Your task to perform on an android device: turn off javascript in the chrome app Image 0: 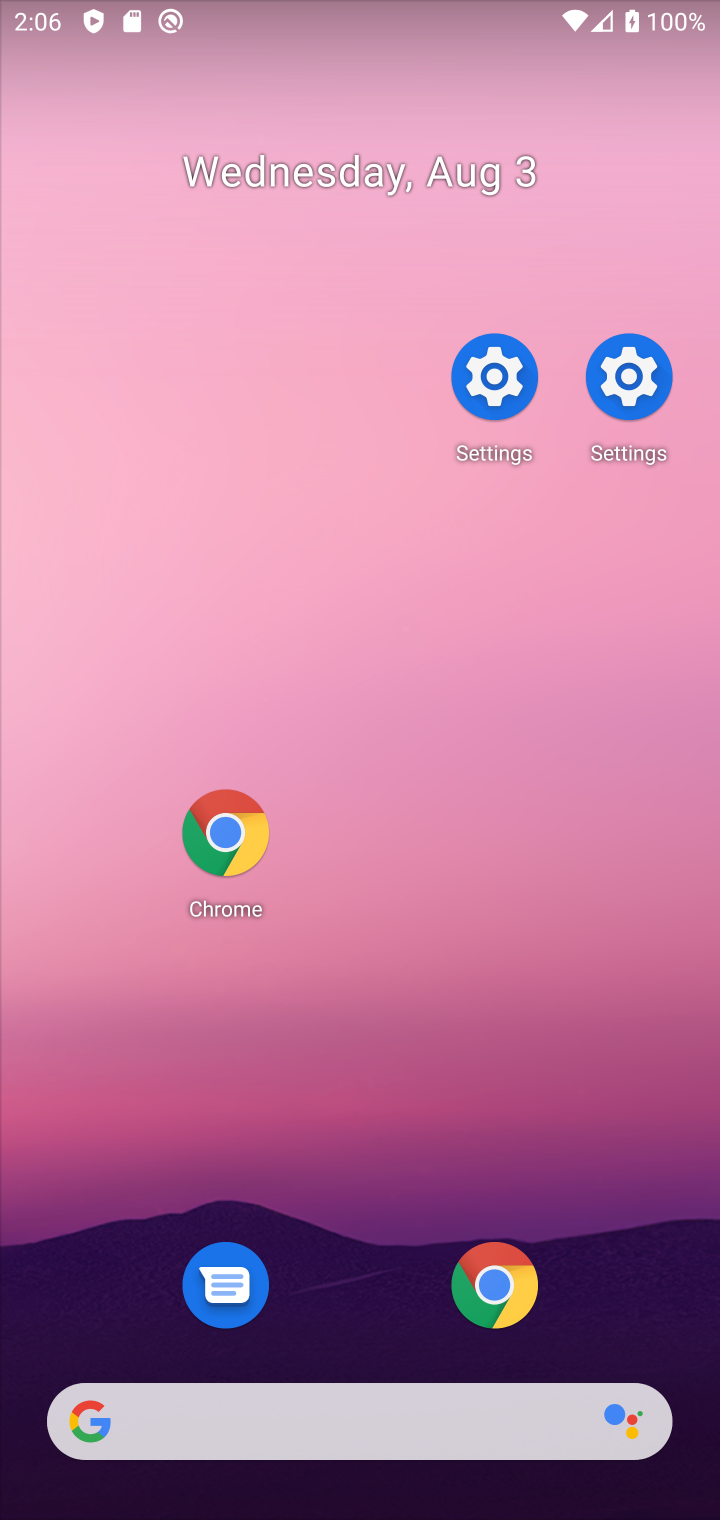
Step 0: drag from (218, 794) to (273, 479)
Your task to perform on an android device: turn off javascript in the chrome app Image 1: 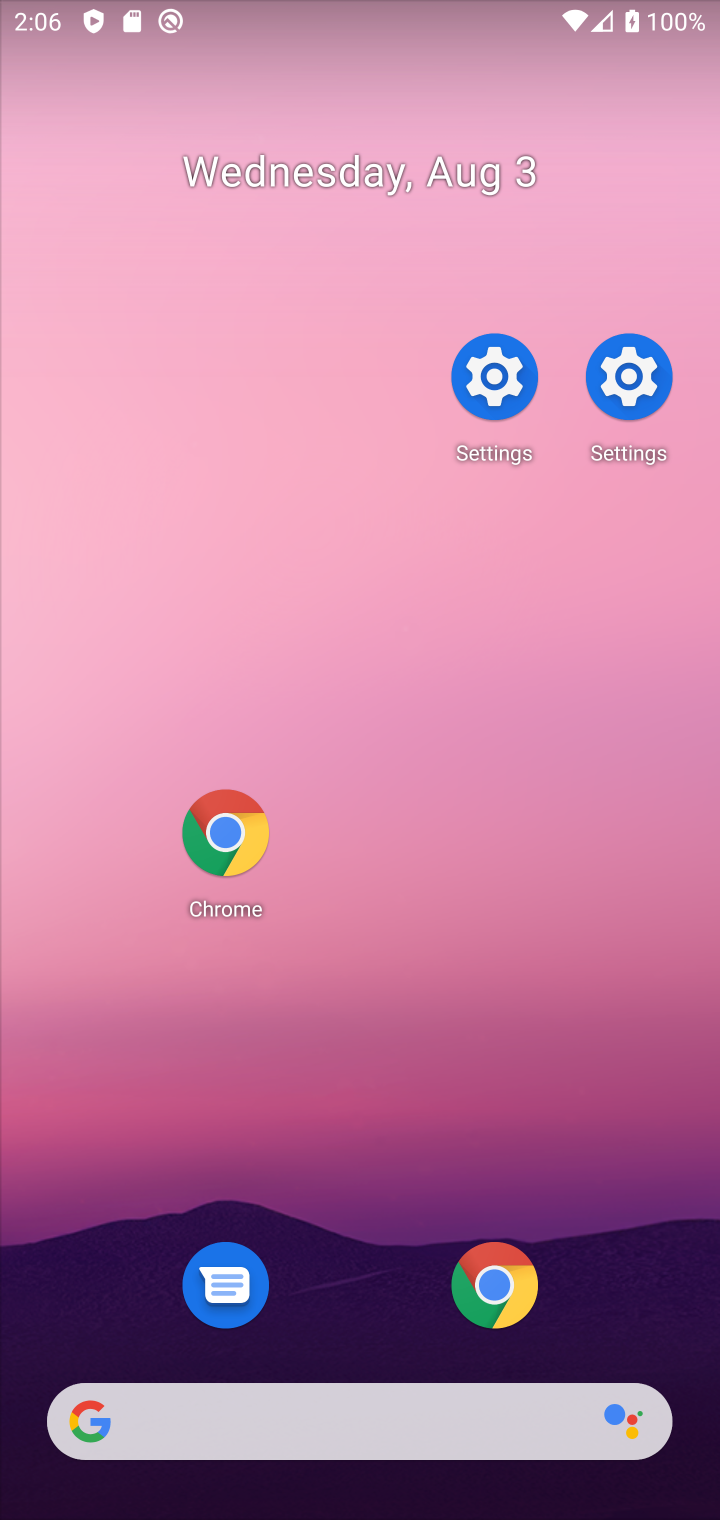
Step 1: drag from (101, 289) to (271, 575)
Your task to perform on an android device: turn off javascript in the chrome app Image 2: 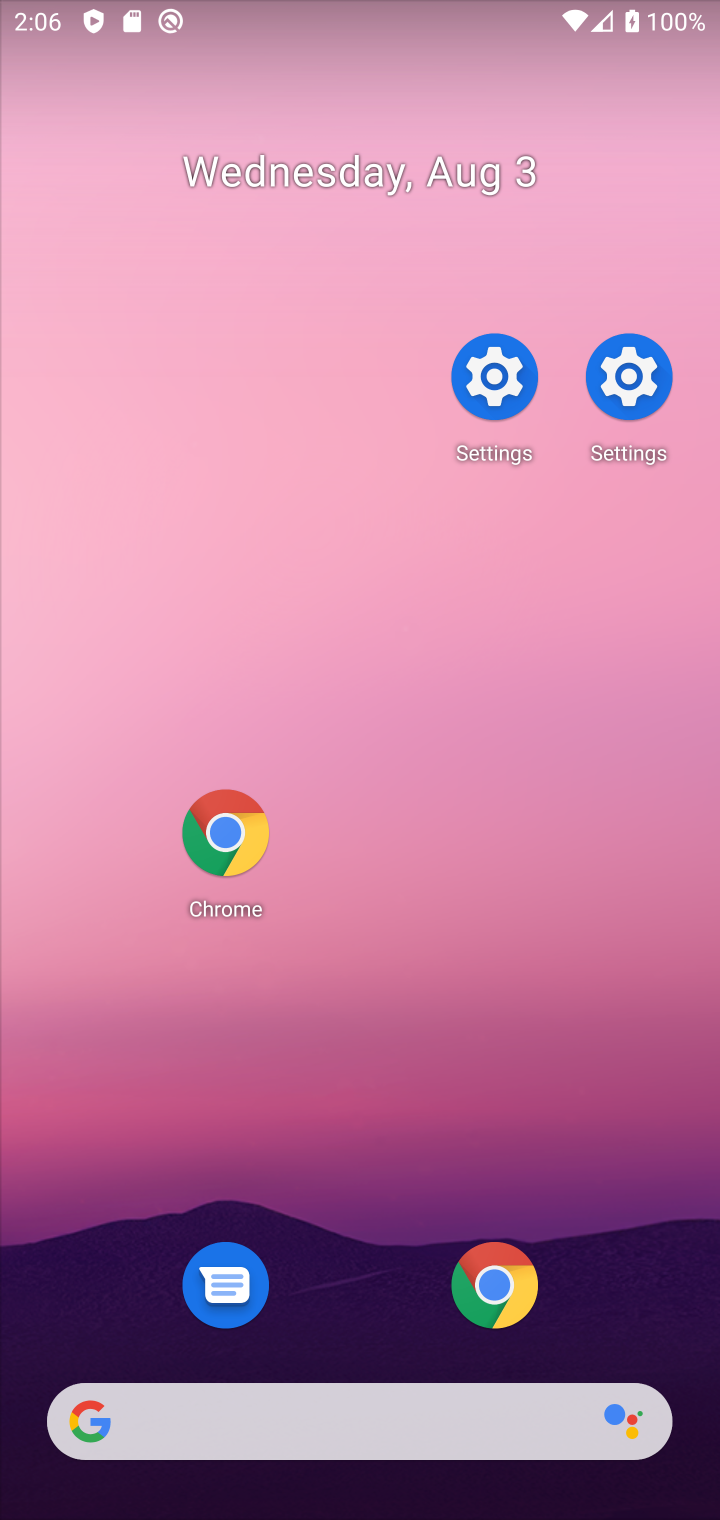
Step 2: click (444, 160)
Your task to perform on an android device: turn off javascript in the chrome app Image 3: 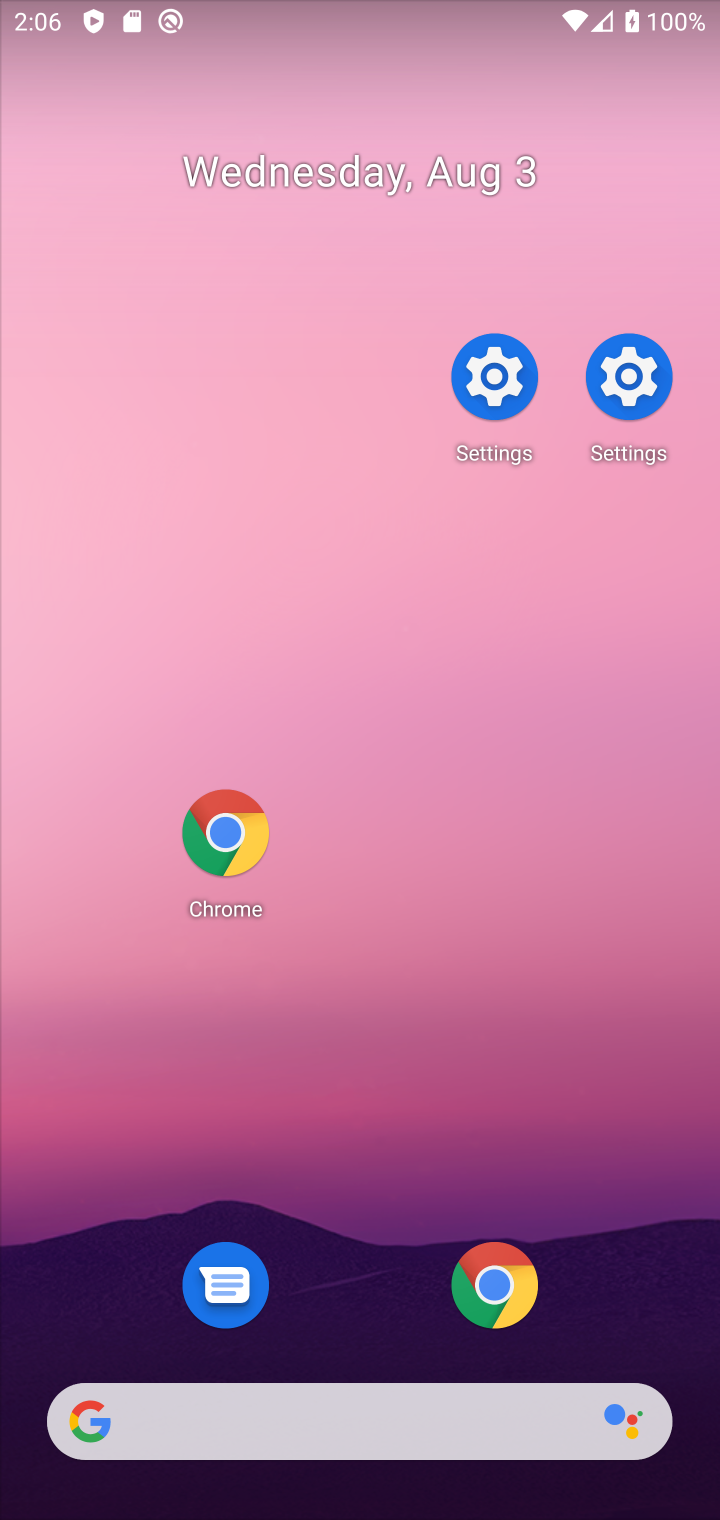
Step 3: click (366, 552)
Your task to perform on an android device: turn off javascript in the chrome app Image 4: 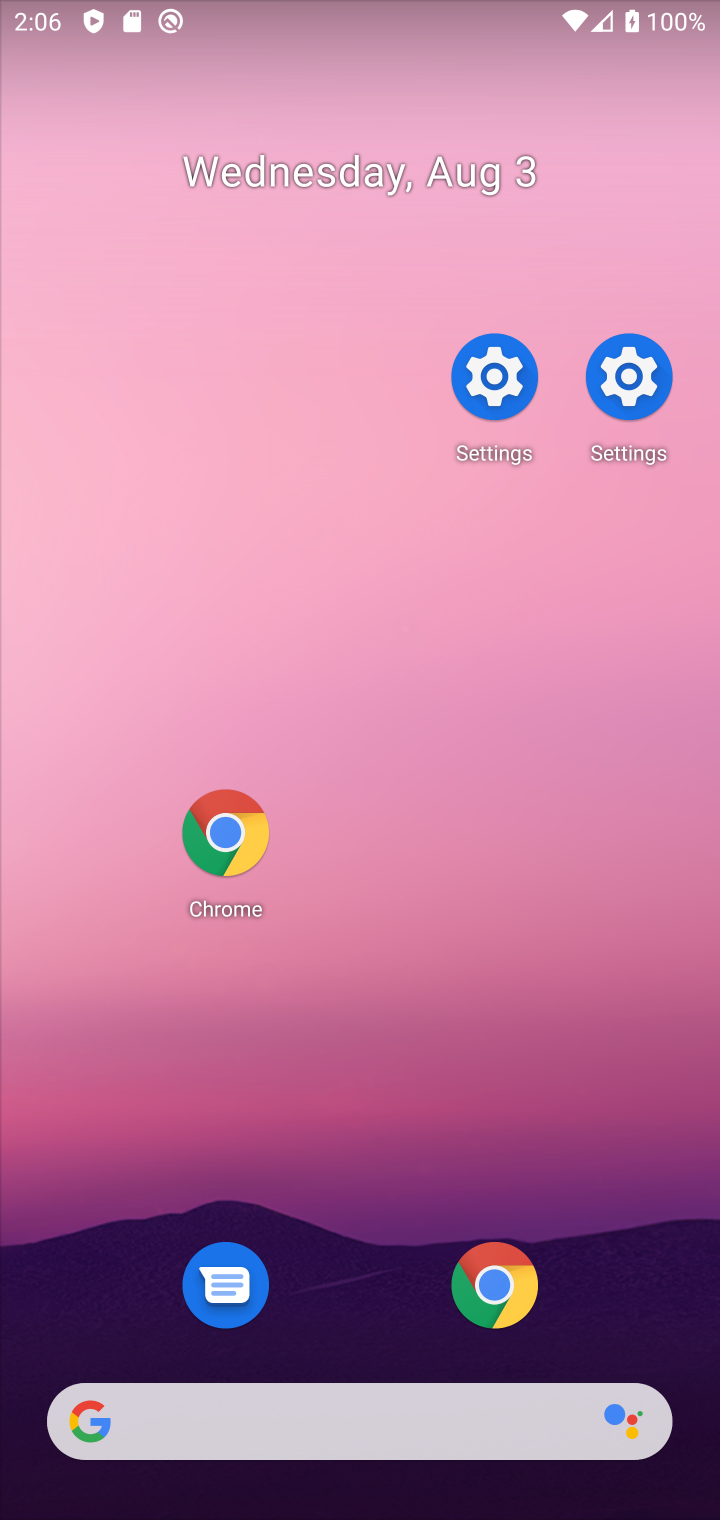
Step 4: drag from (346, 494) to (292, 232)
Your task to perform on an android device: turn off javascript in the chrome app Image 5: 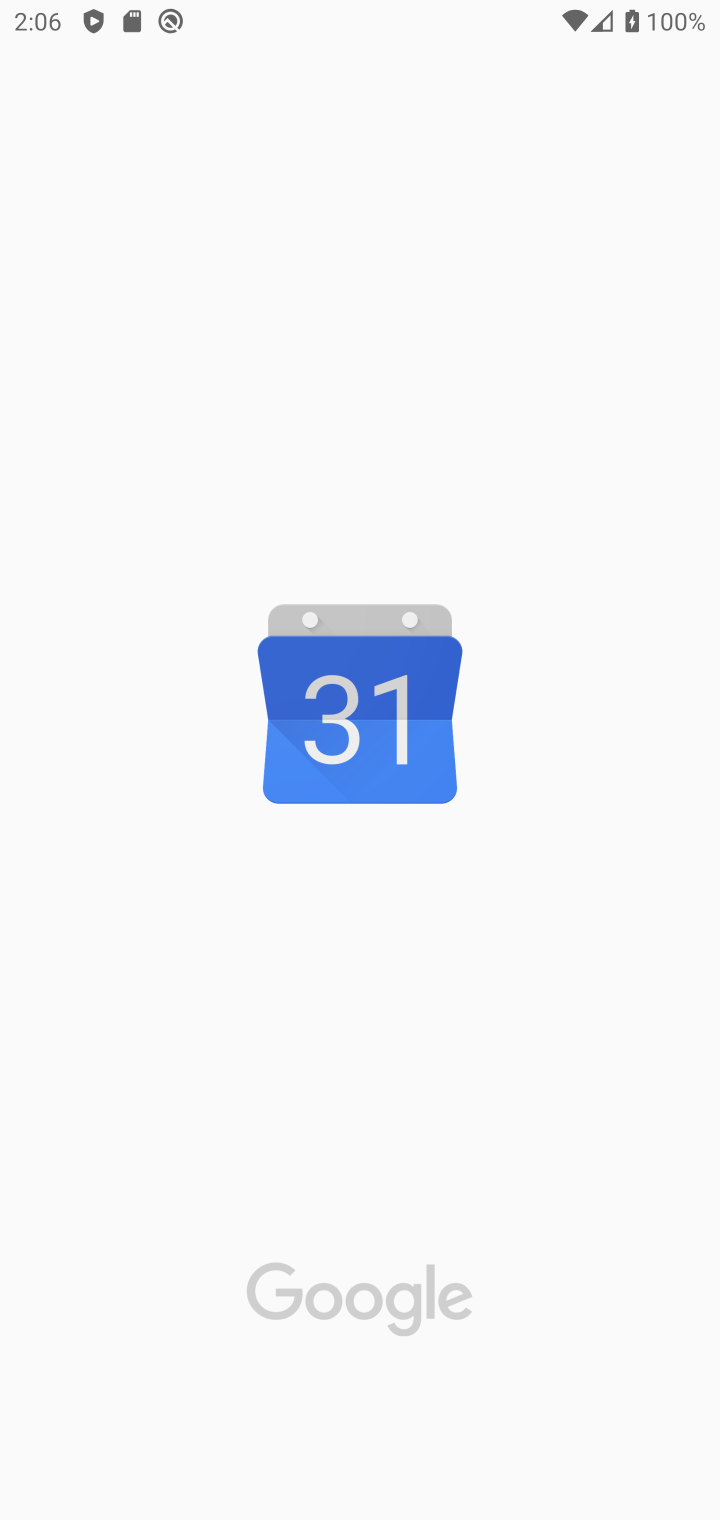
Step 5: drag from (436, 1020) to (363, 475)
Your task to perform on an android device: turn off javascript in the chrome app Image 6: 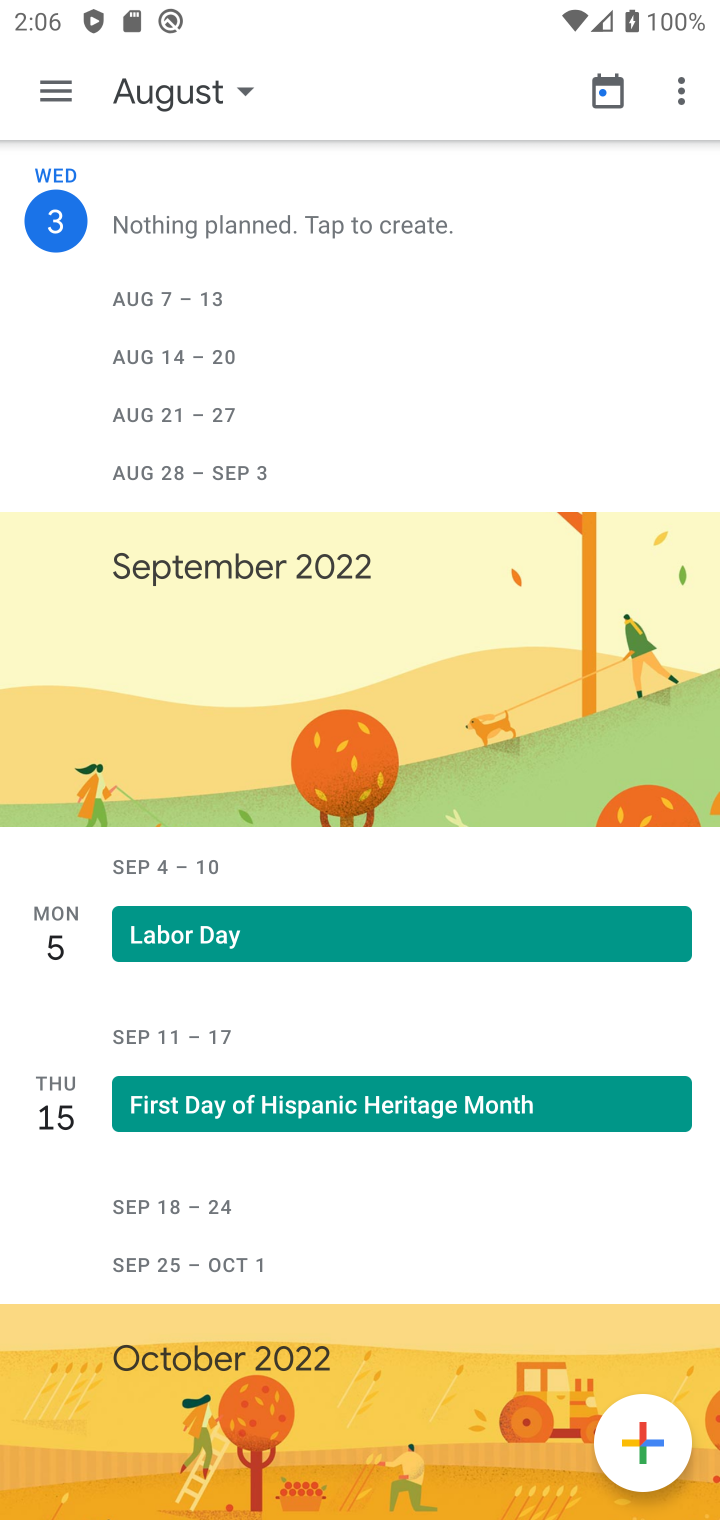
Step 6: click (361, 568)
Your task to perform on an android device: turn off javascript in the chrome app Image 7: 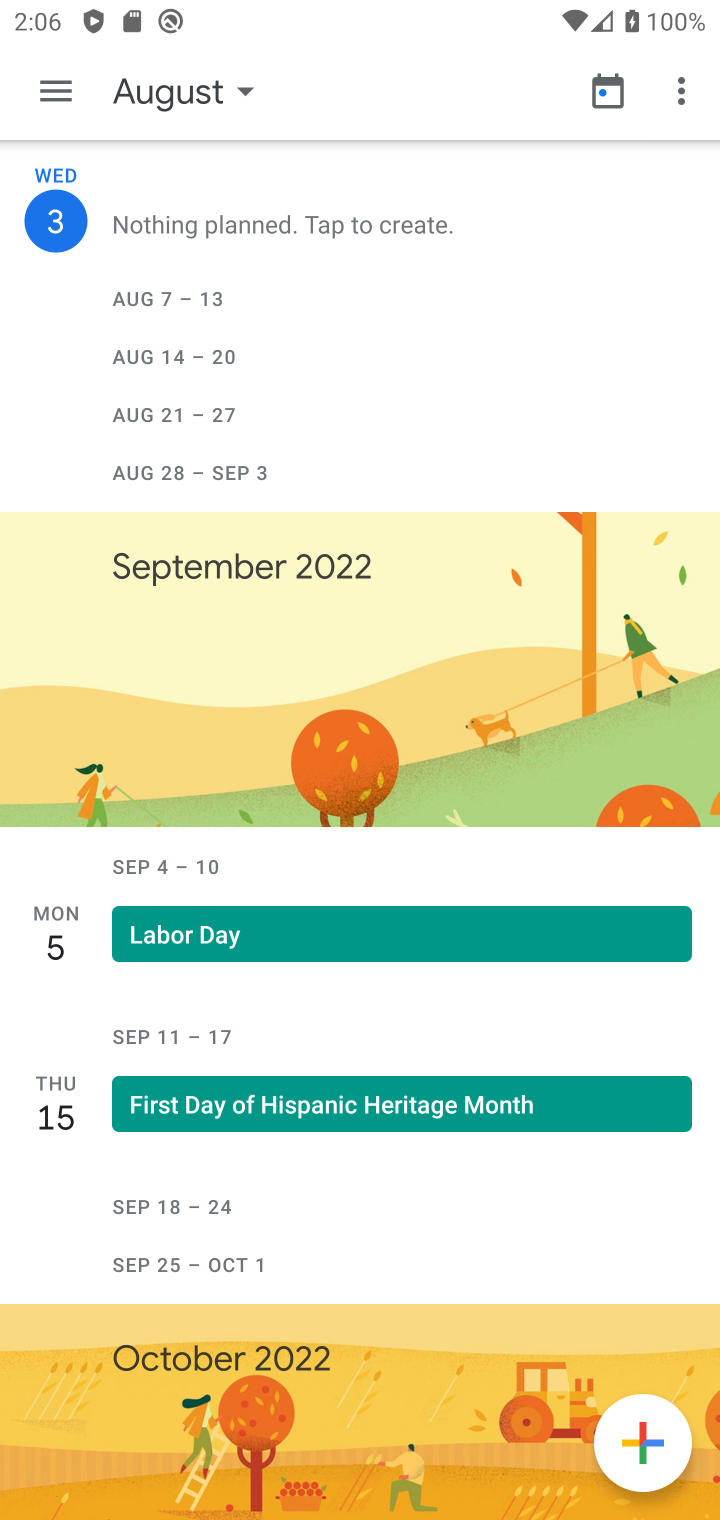
Step 7: press back button
Your task to perform on an android device: turn off javascript in the chrome app Image 8: 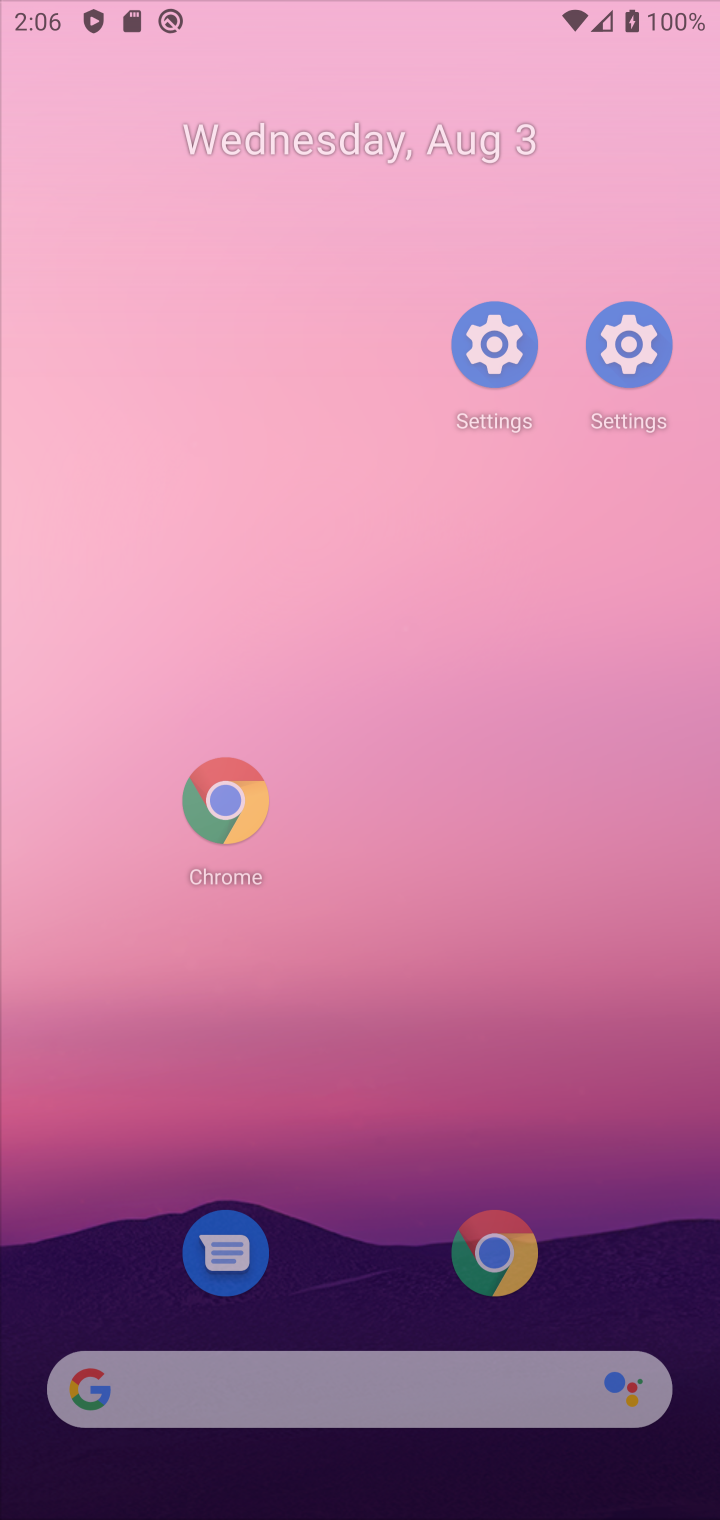
Step 8: press home button
Your task to perform on an android device: turn off javascript in the chrome app Image 9: 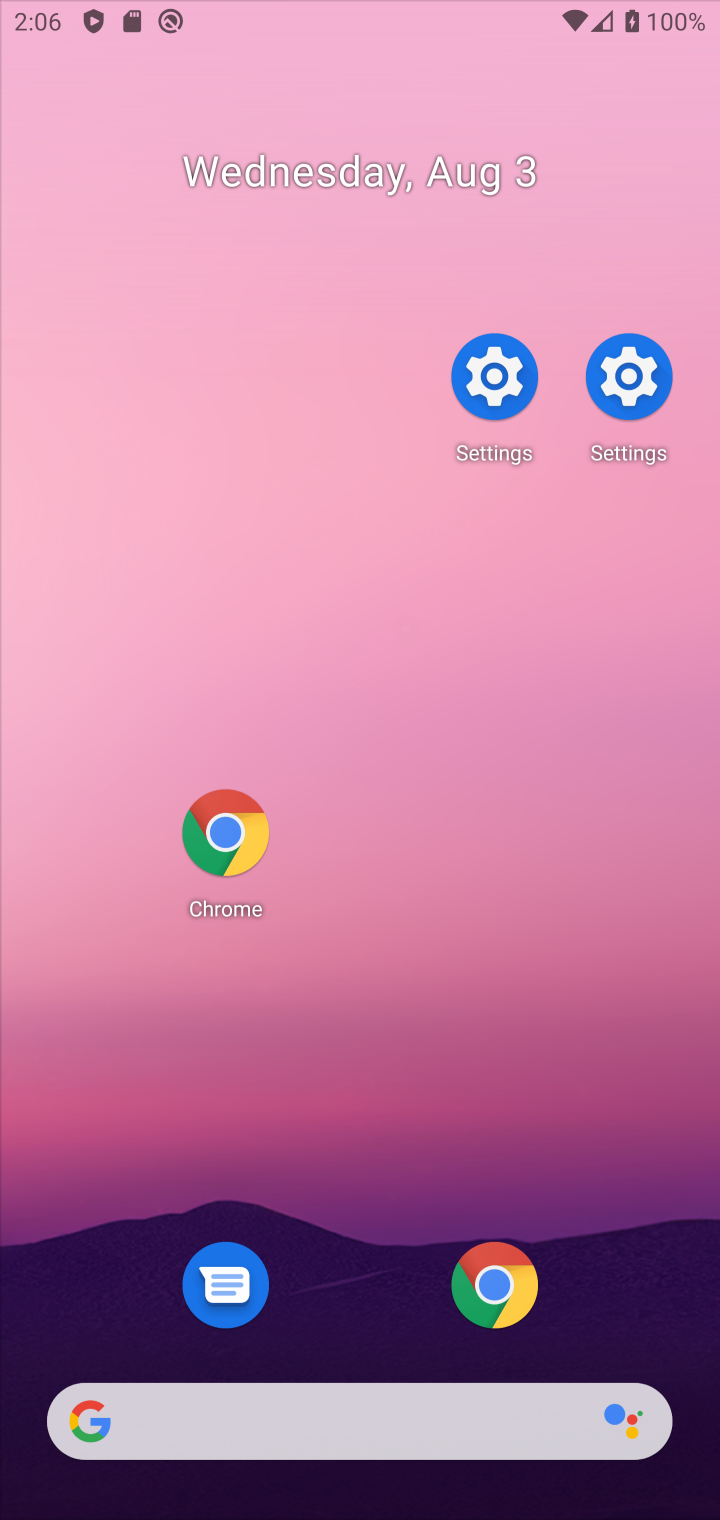
Step 9: drag from (149, 121) to (196, 262)
Your task to perform on an android device: turn off javascript in the chrome app Image 10: 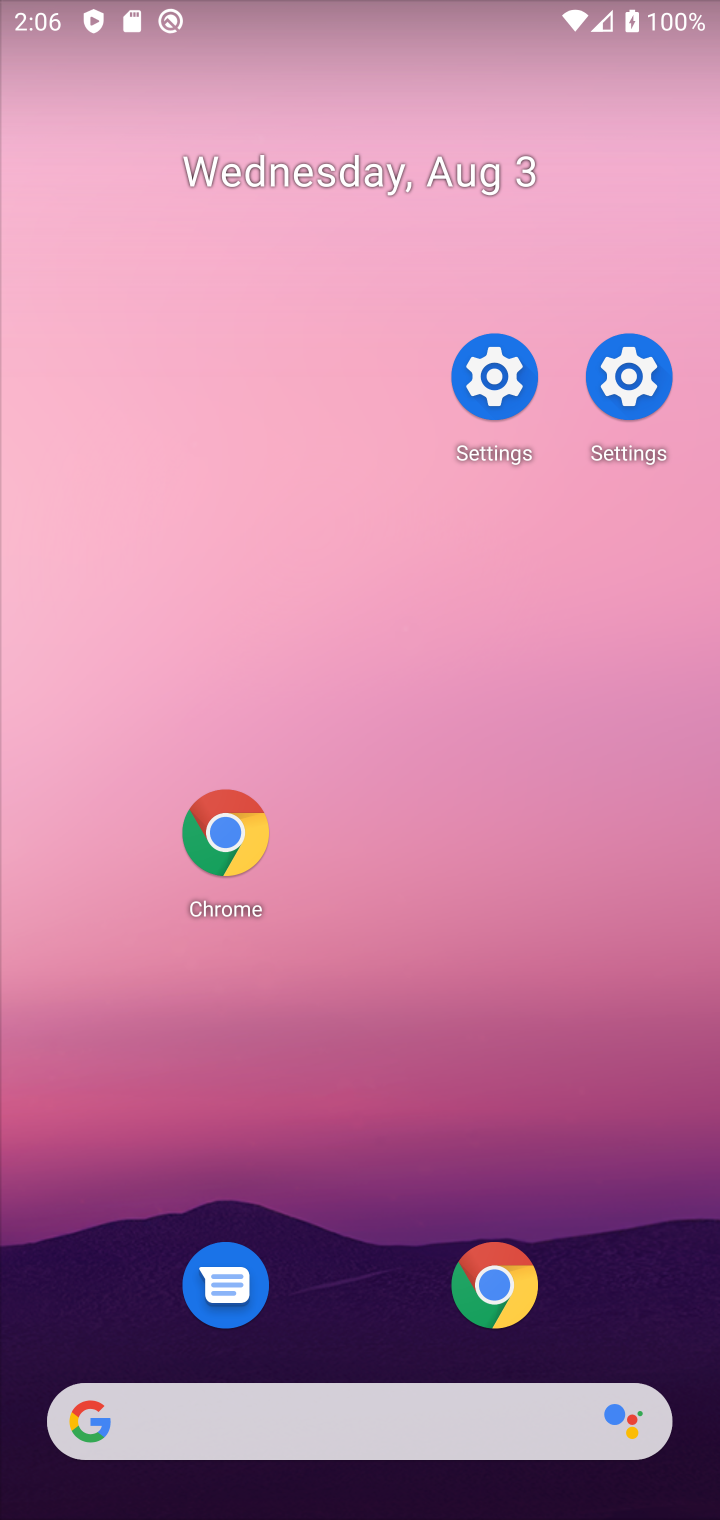
Step 10: click (180, 314)
Your task to perform on an android device: turn off javascript in the chrome app Image 11: 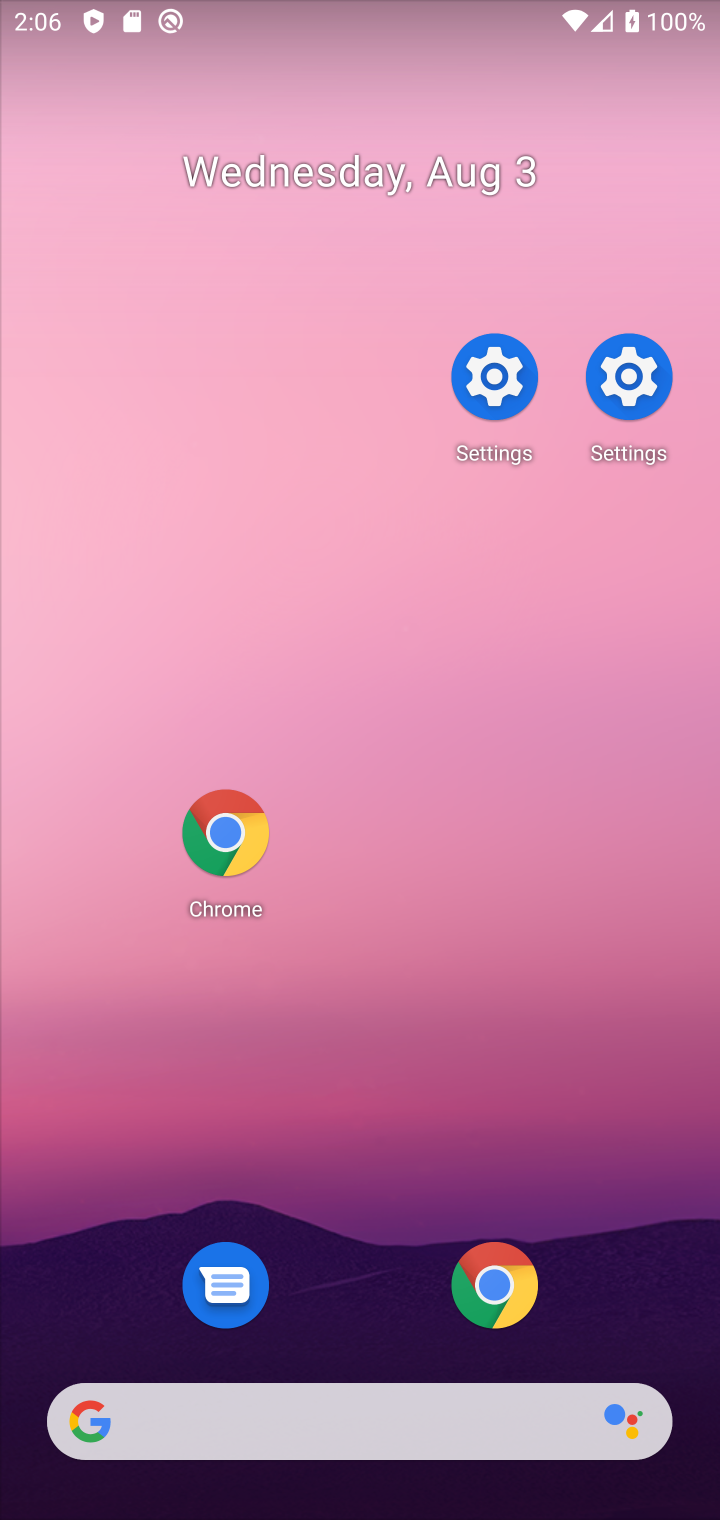
Step 11: click (158, 231)
Your task to perform on an android device: turn off javascript in the chrome app Image 12: 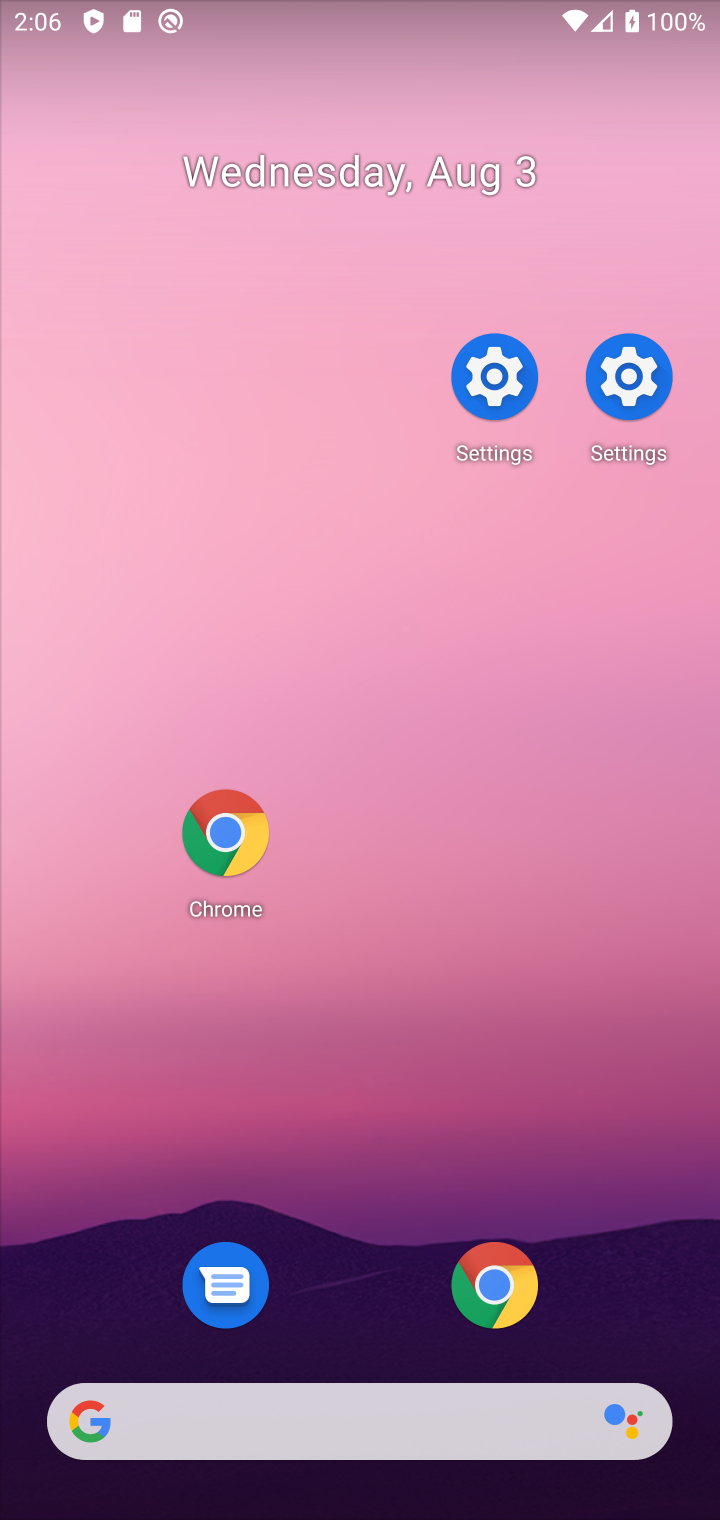
Step 12: drag from (332, 961) to (240, 394)
Your task to perform on an android device: turn off javascript in the chrome app Image 13: 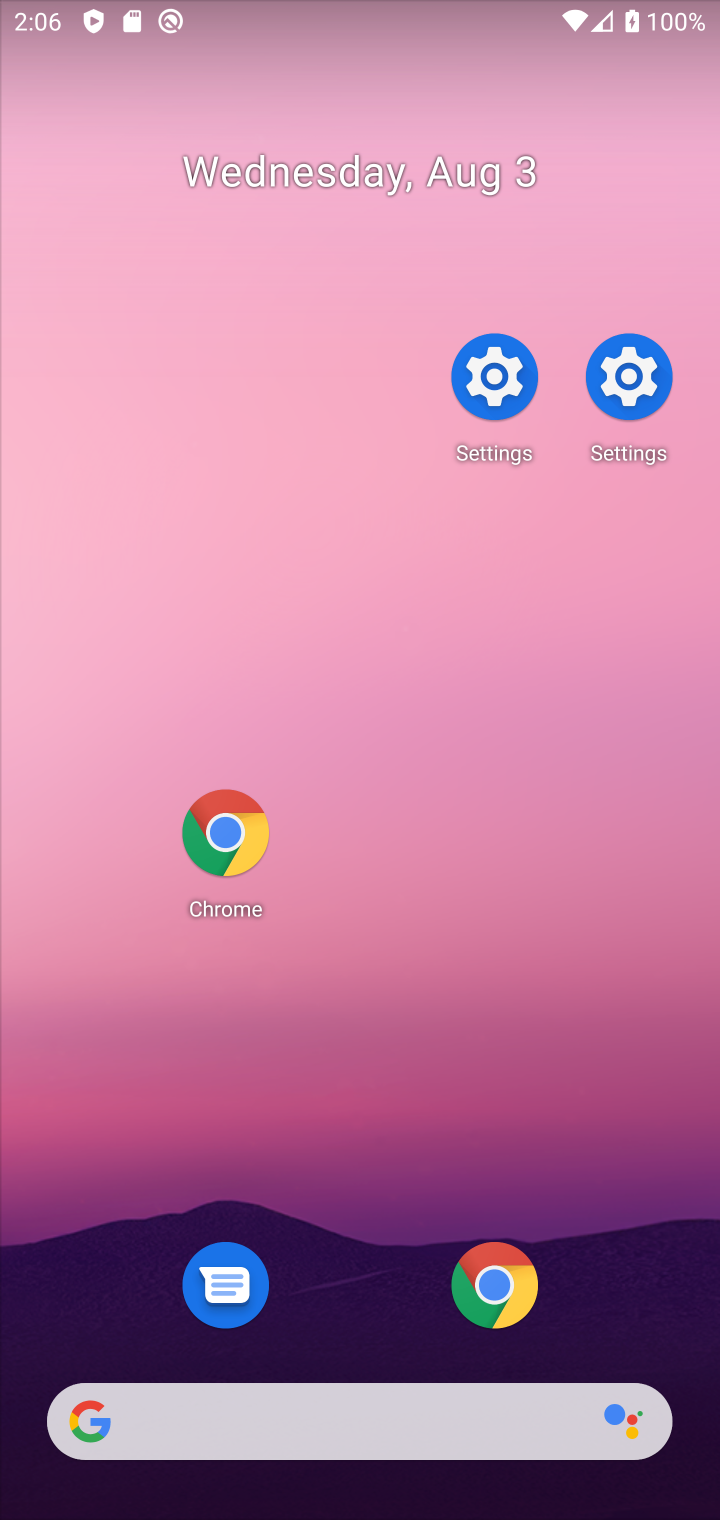
Step 13: drag from (346, 909) to (286, 750)
Your task to perform on an android device: turn off javascript in the chrome app Image 14: 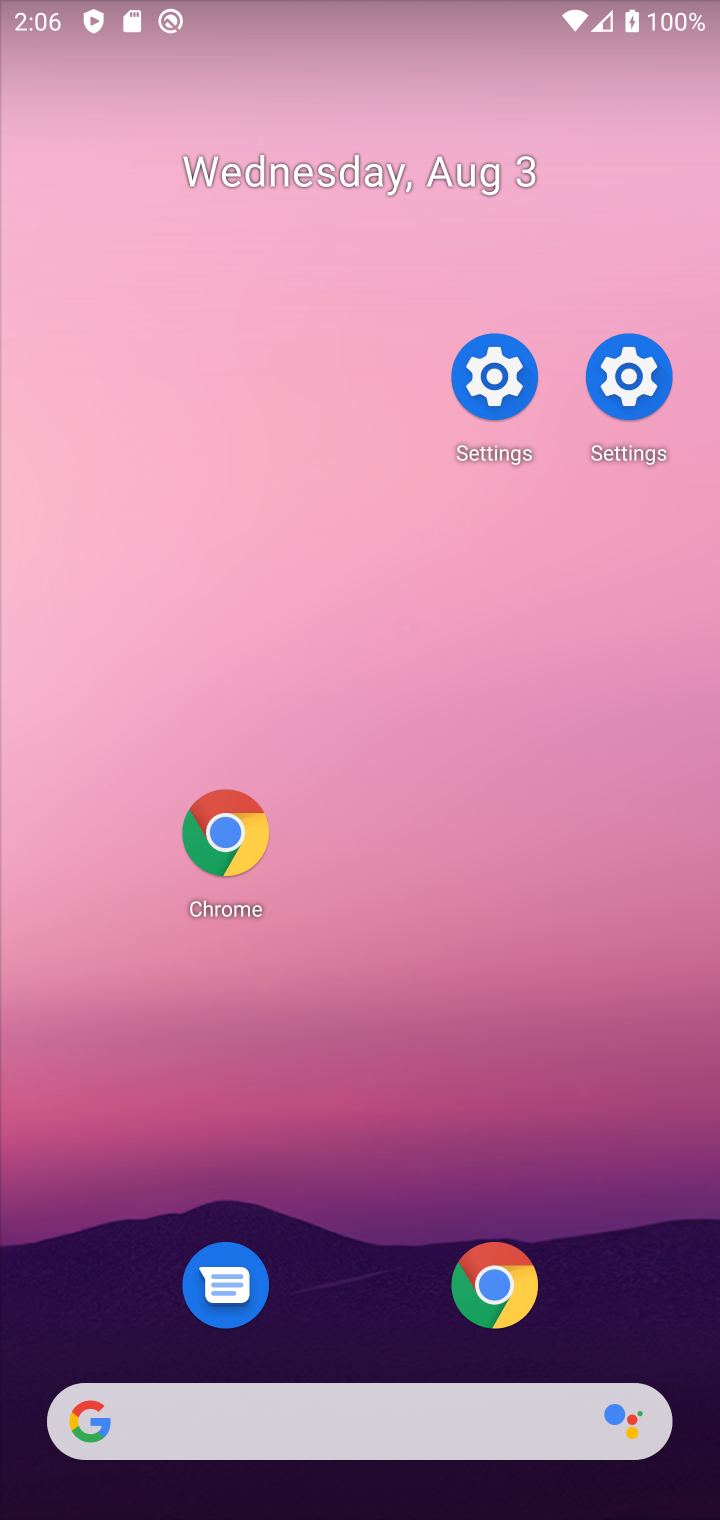
Step 14: drag from (326, 1164) to (264, 427)
Your task to perform on an android device: turn off javascript in the chrome app Image 15: 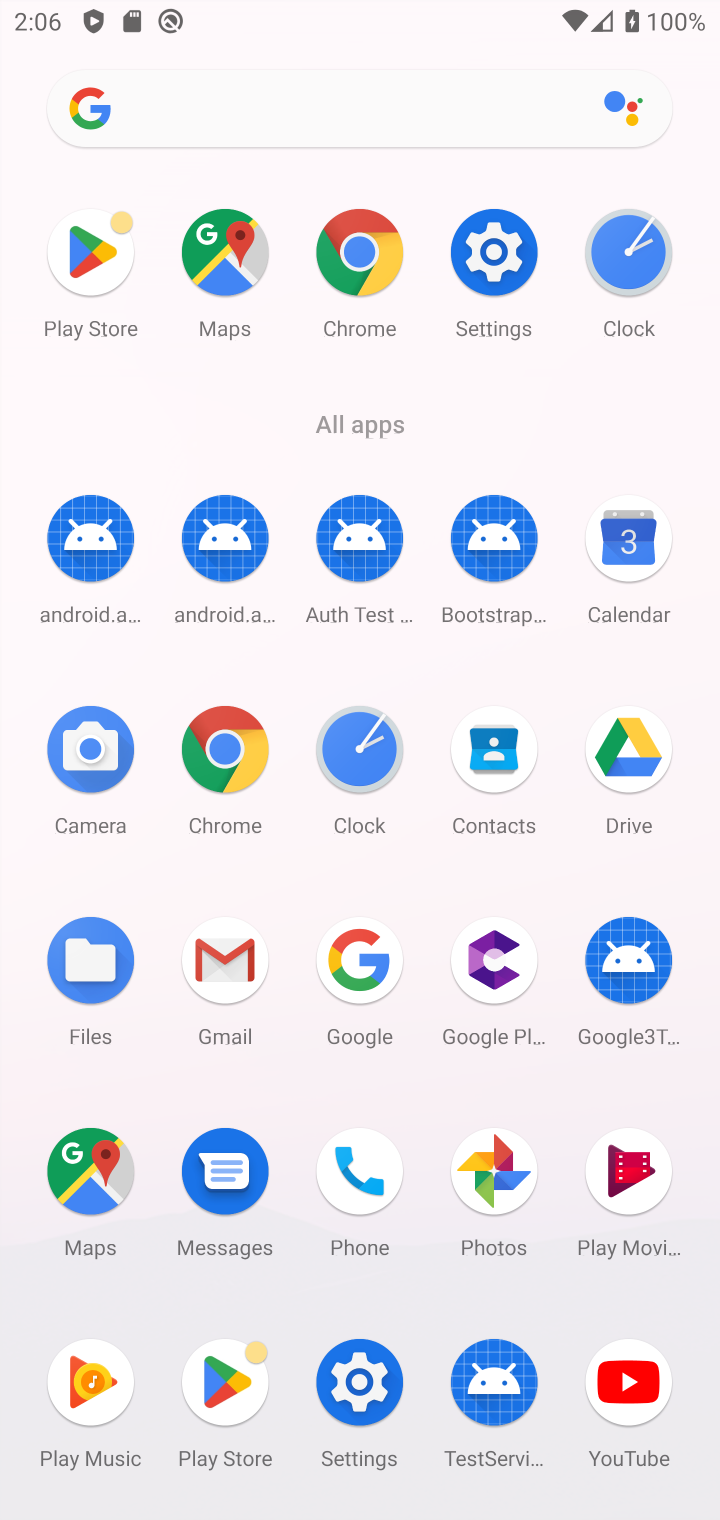
Step 15: drag from (401, 146) to (447, 42)
Your task to perform on an android device: turn off javascript in the chrome app Image 16: 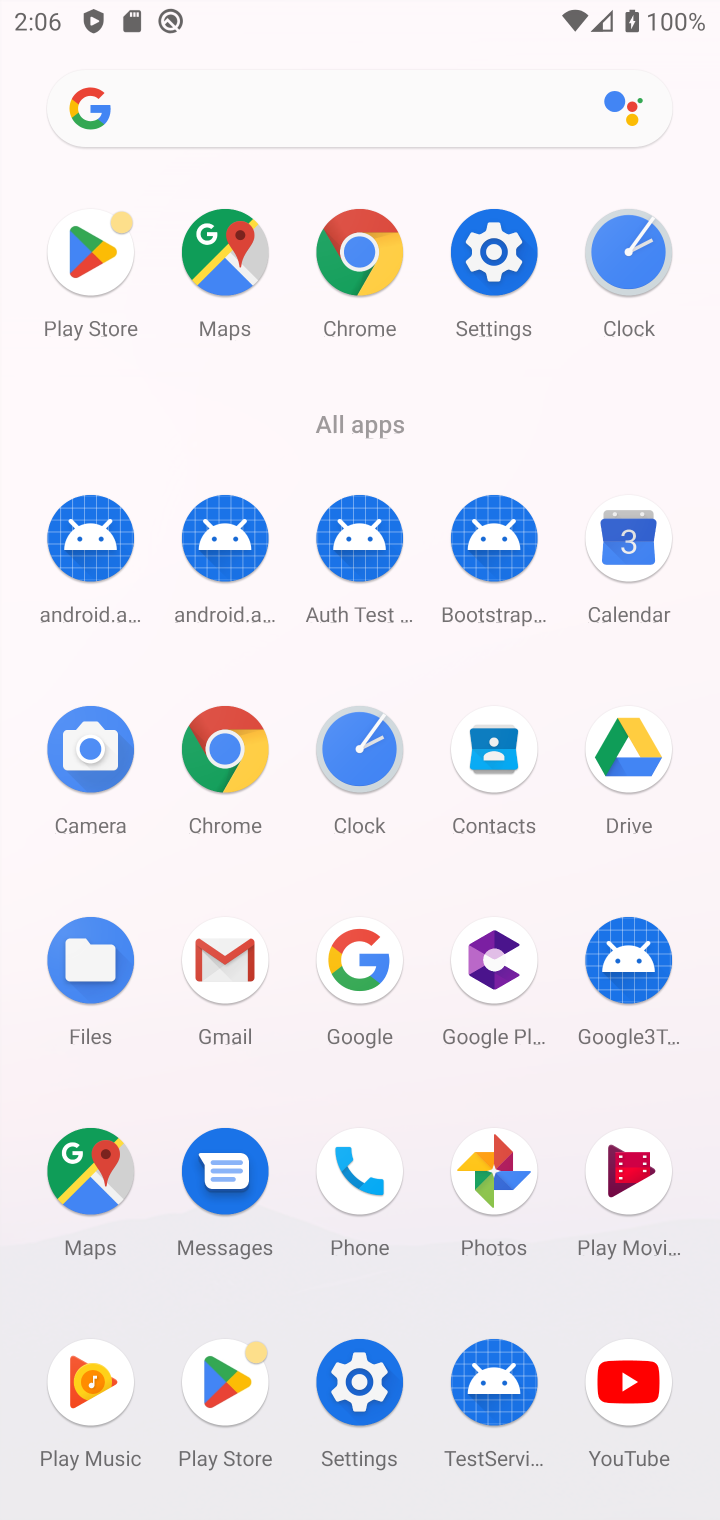
Step 16: click (219, 730)
Your task to perform on an android device: turn off javascript in the chrome app Image 17: 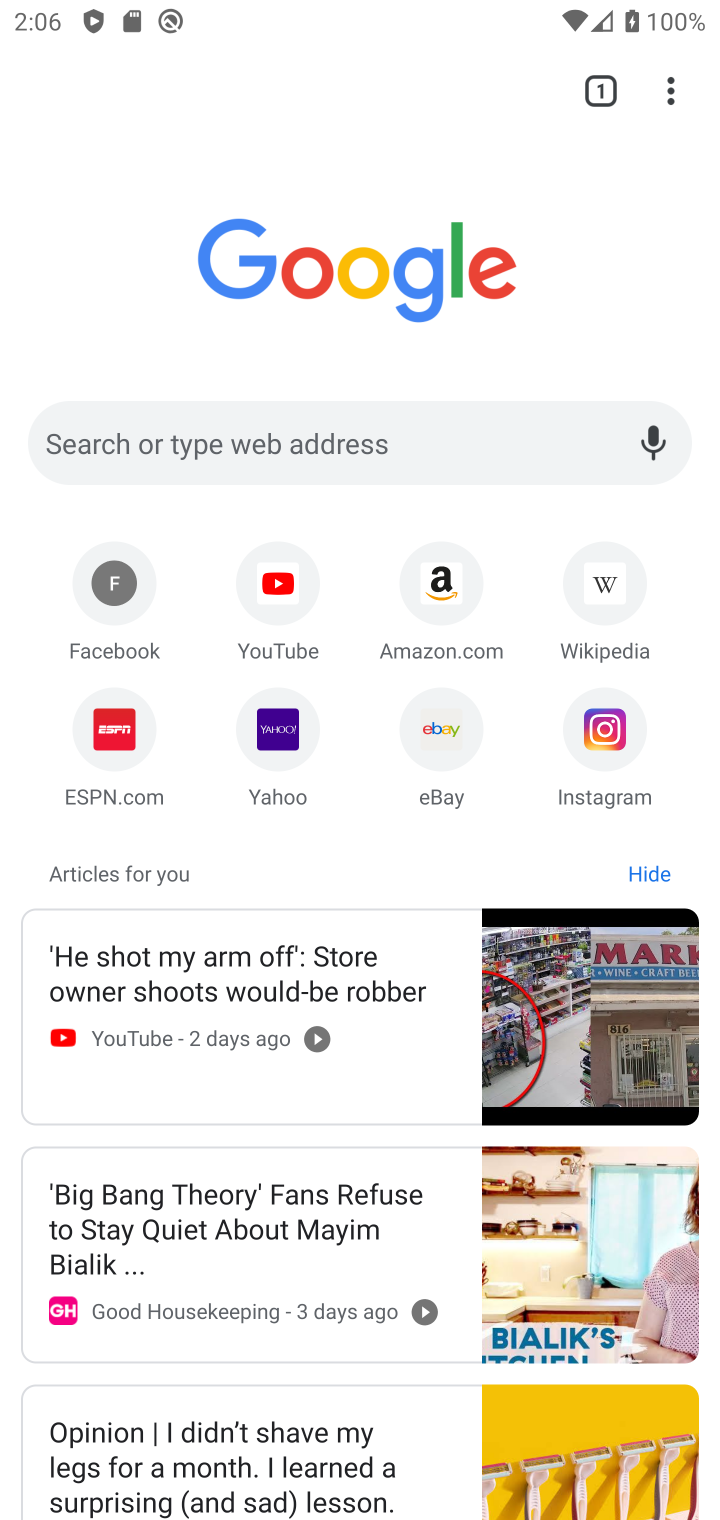
Step 17: drag from (673, 95) to (343, 782)
Your task to perform on an android device: turn off javascript in the chrome app Image 18: 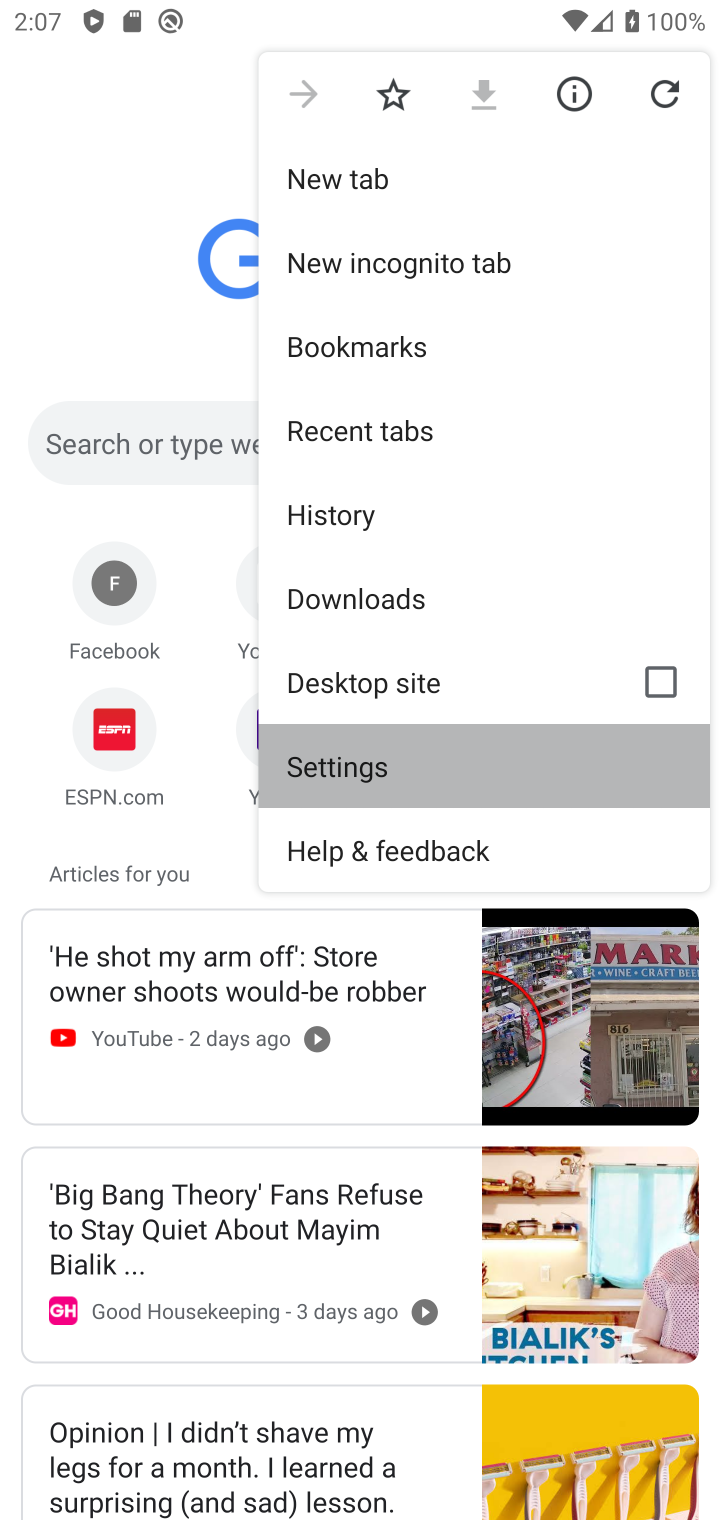
Step 18: click (338, 783)
Your task to perform on an android device: turn off javascript in the chrome app Image 19: 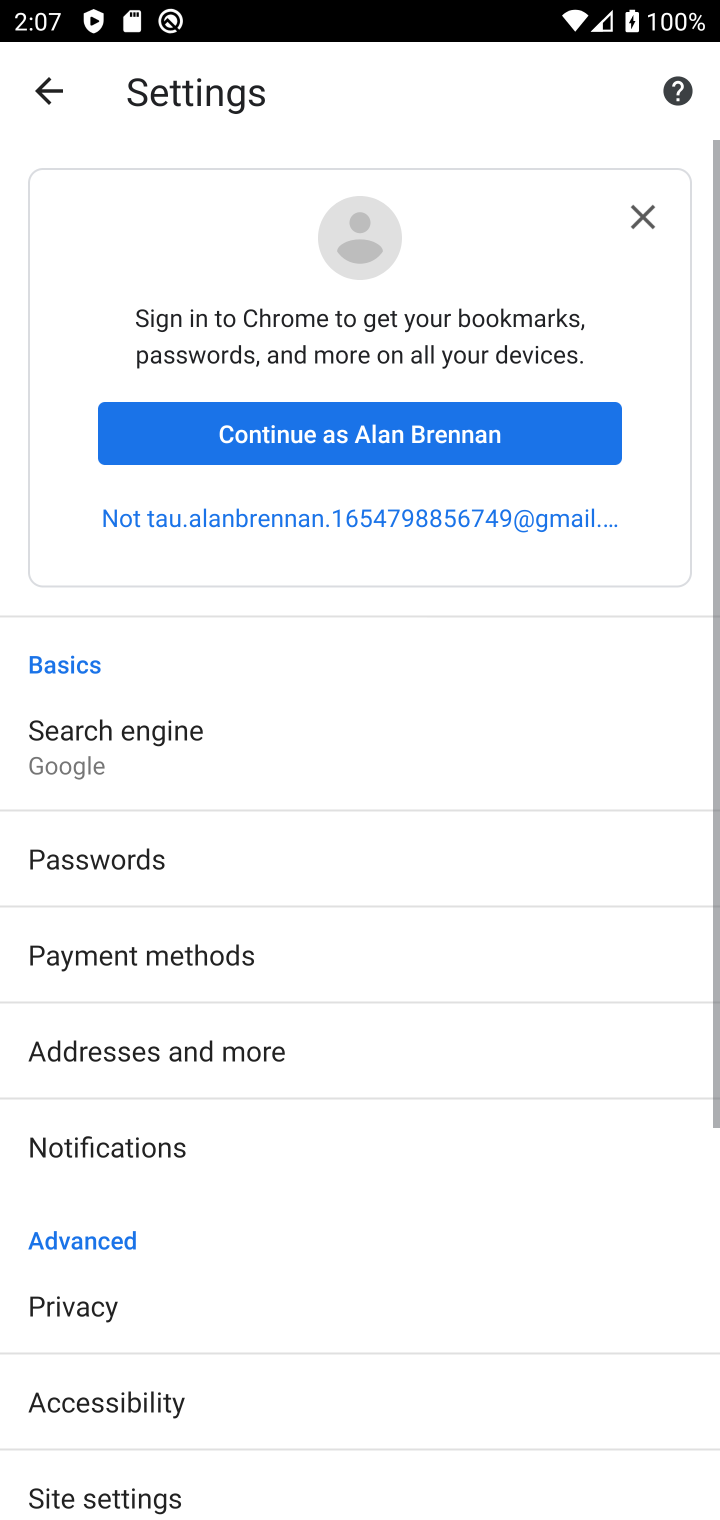
Step 19: drag from (222, 1177) to (168, 426)
Your task to perform on an android device: turn off javascript in the chrome app Image 20: 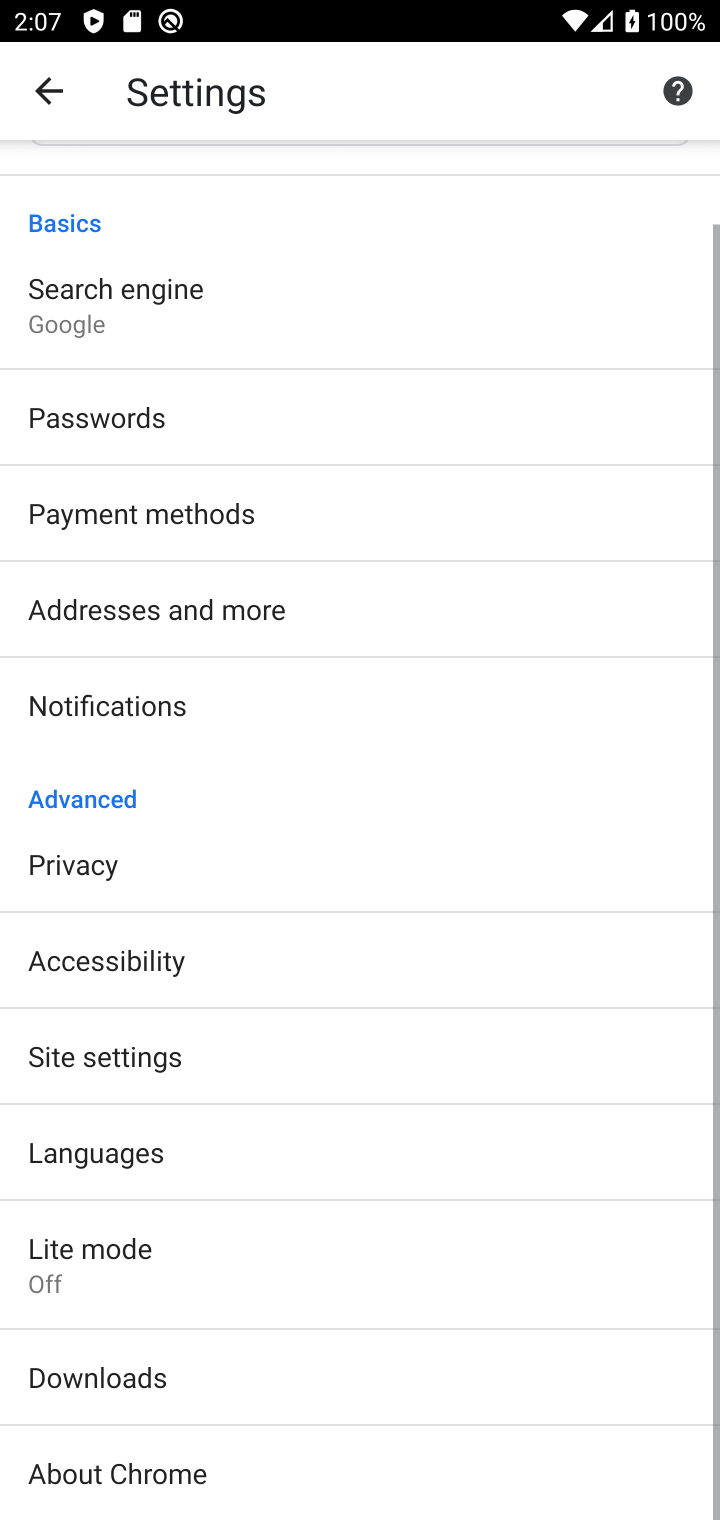
Step 20: drag from (175, 878) to (130, 425)
Your task to perform on an android device: turn off javascript in the chrome app Image 21: 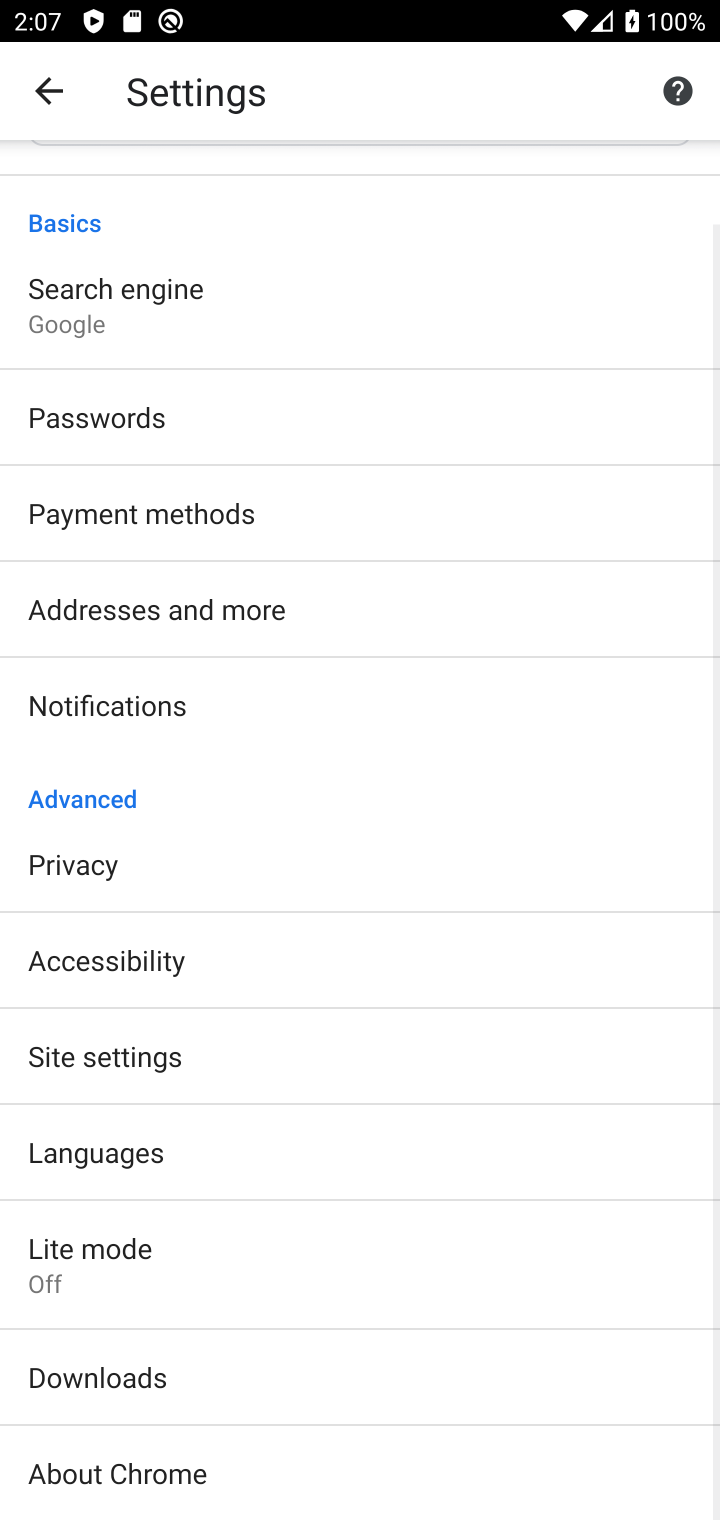
Step 21: drag from (352, 375) to (225, 1116)
Your task to perform on an android device: turn off javascript in the chrome app Image 22: 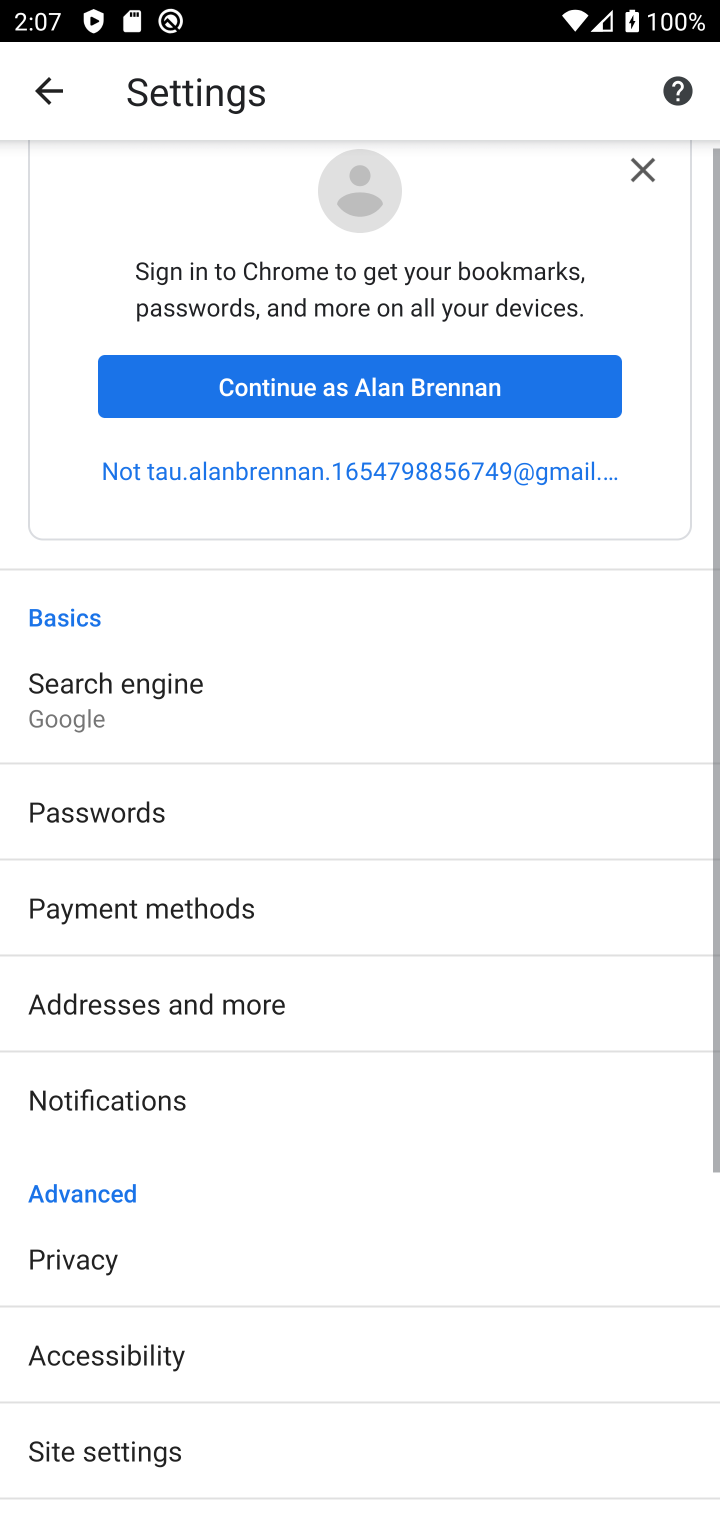
Step 22: drag from (483, 733) to (471, 887)
Your task to perform on an android device: turn off javascript in the chrome app Image 23: 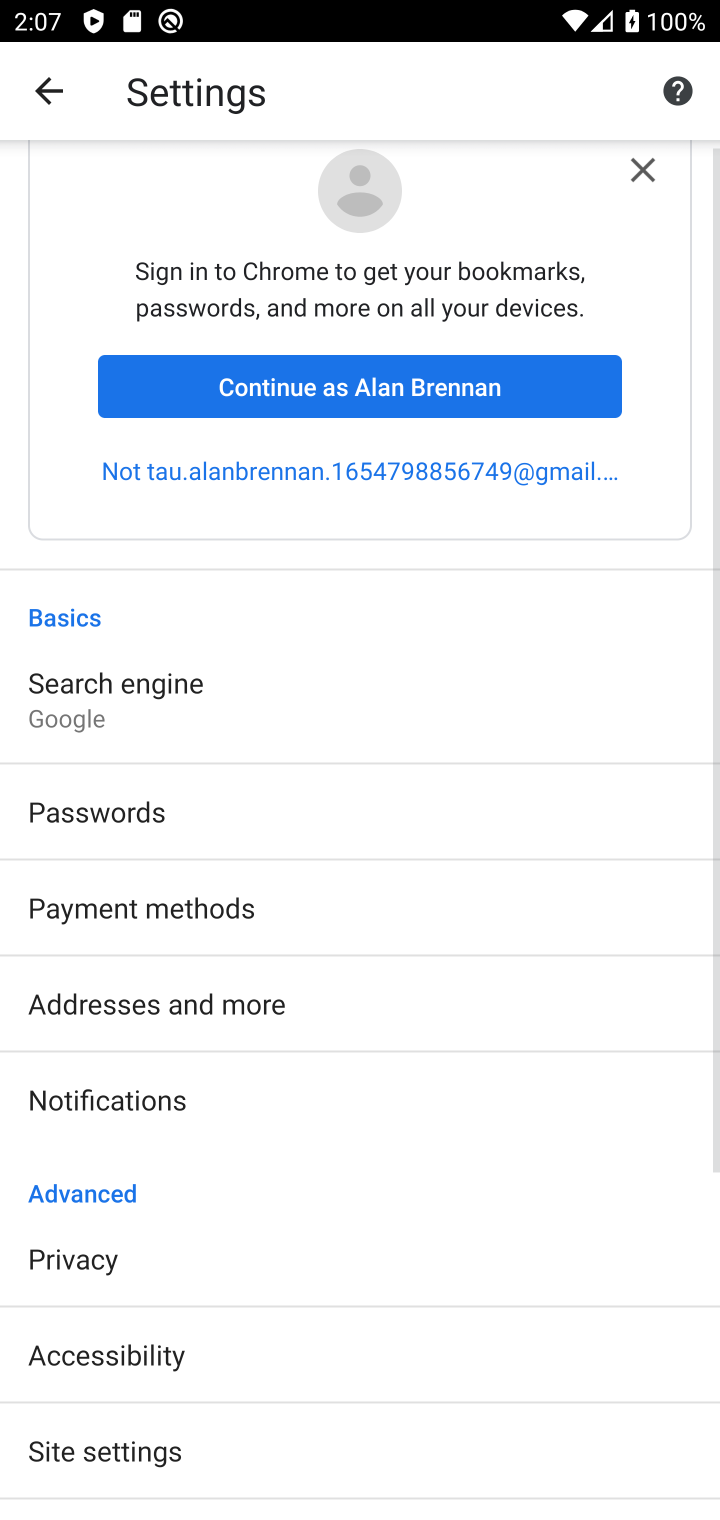
Step 23: click (396, 859)
Your task to perform on an android device: turn off javascript in the chrome app Image 24: 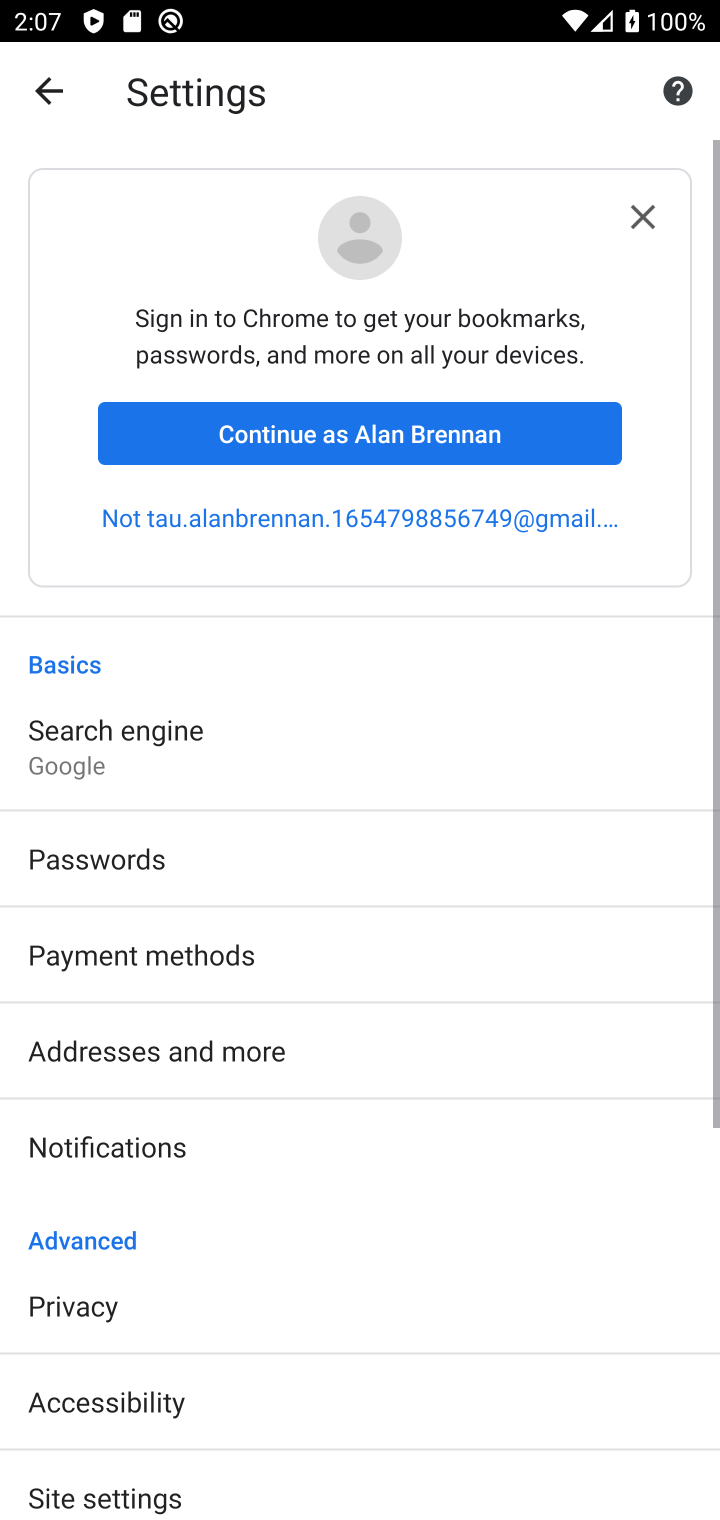
Step 24: click (660, 187)
Your task to perform on an android device: turn off javascript in the chrome app Image 25: 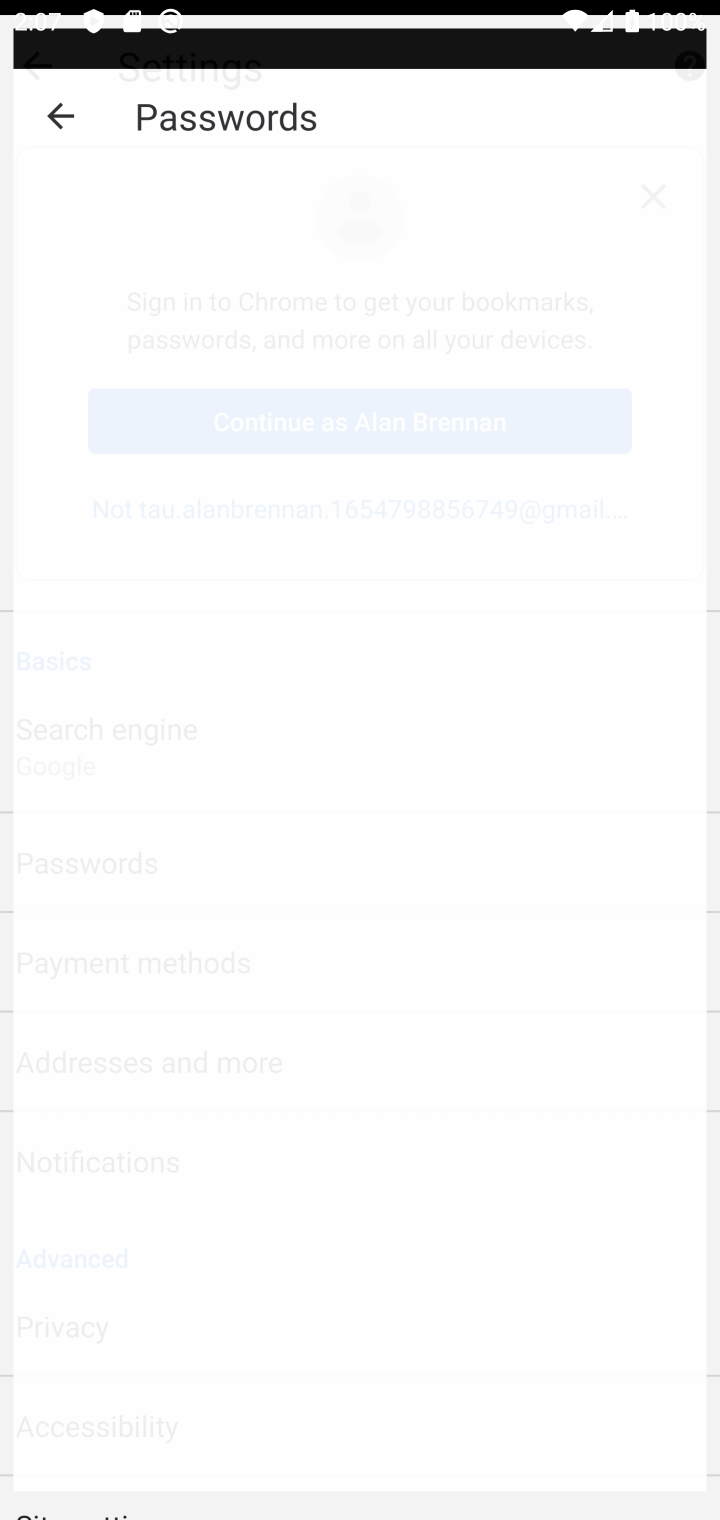
Step 25: click (628, 208)
Your task to perform on an android device: turn off javascript in the chrome app Image 26: 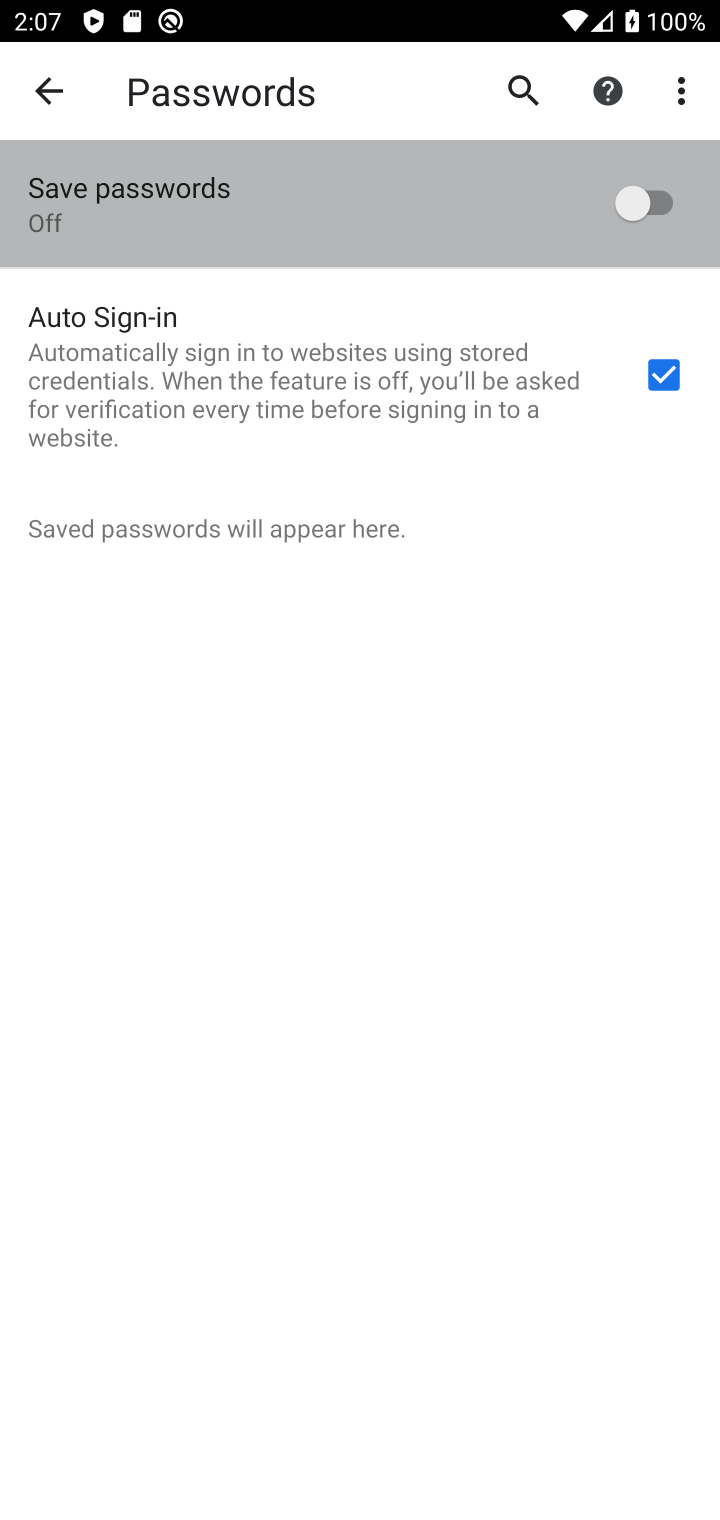
Step 26: click (628, 208)
Your task to perform on an android device: turn off javascript in the chrome app Image 27: 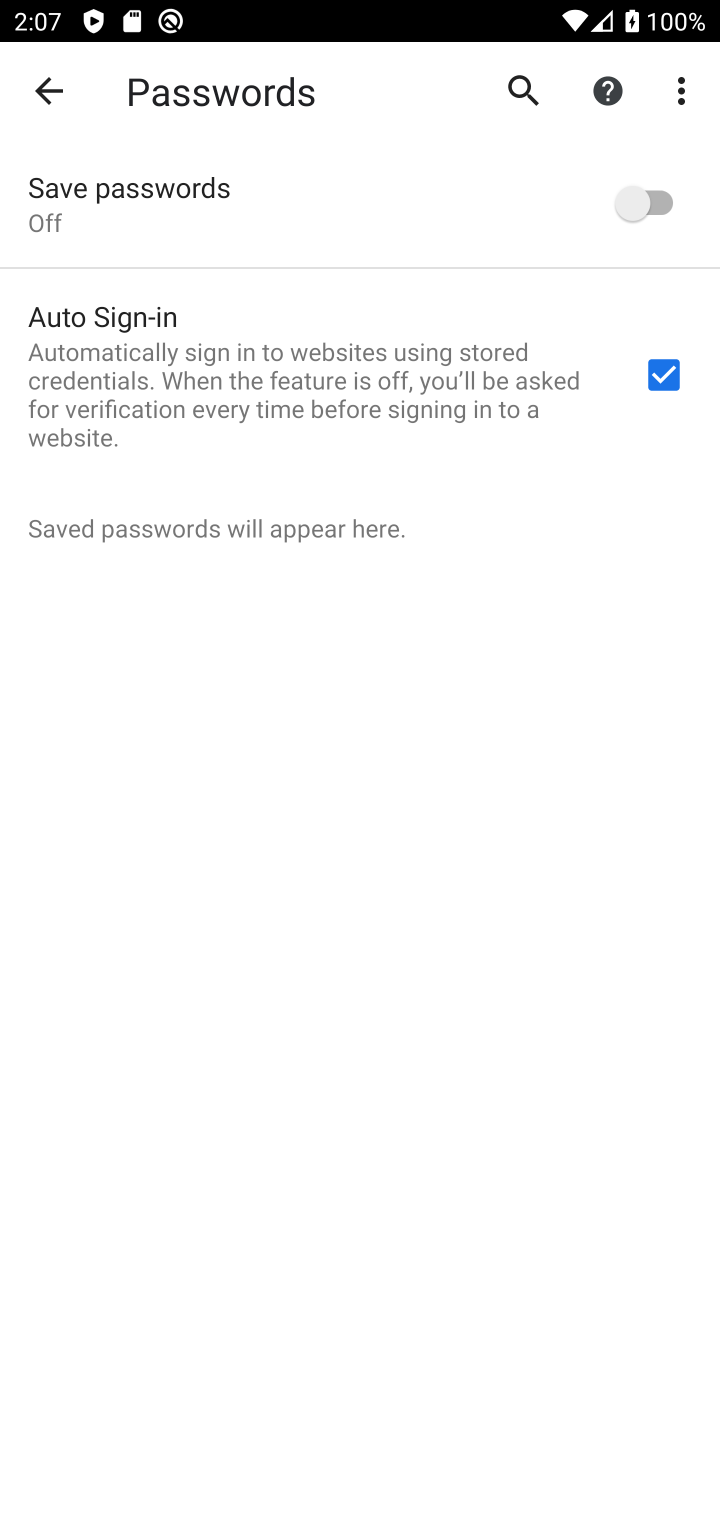
Step 27: click (625, 217)
Your task to perform on an android device: turn off javascript in the chrome app Image 28: 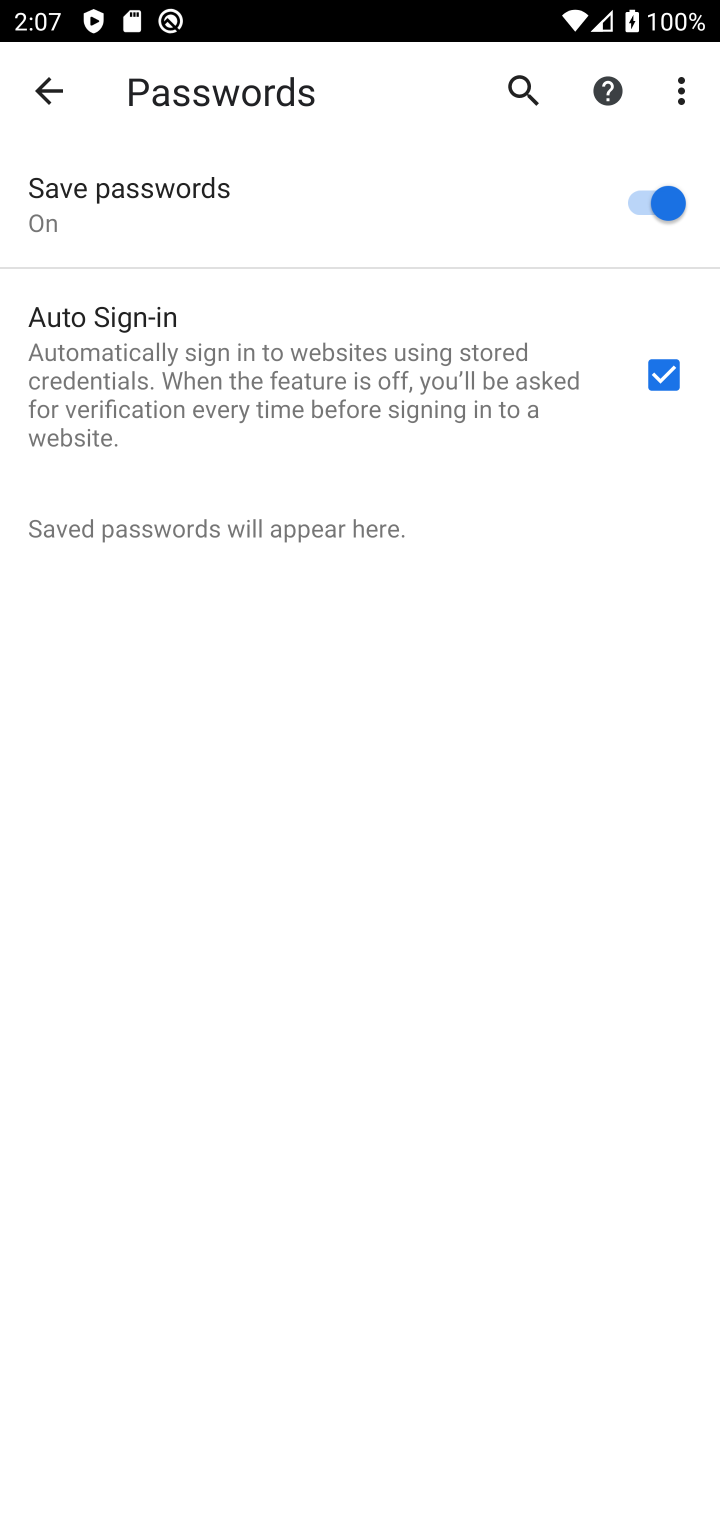
Step 28: click (29, 101)
Your task to perform on an android device: turn off javascript in the chrome app Image 29: 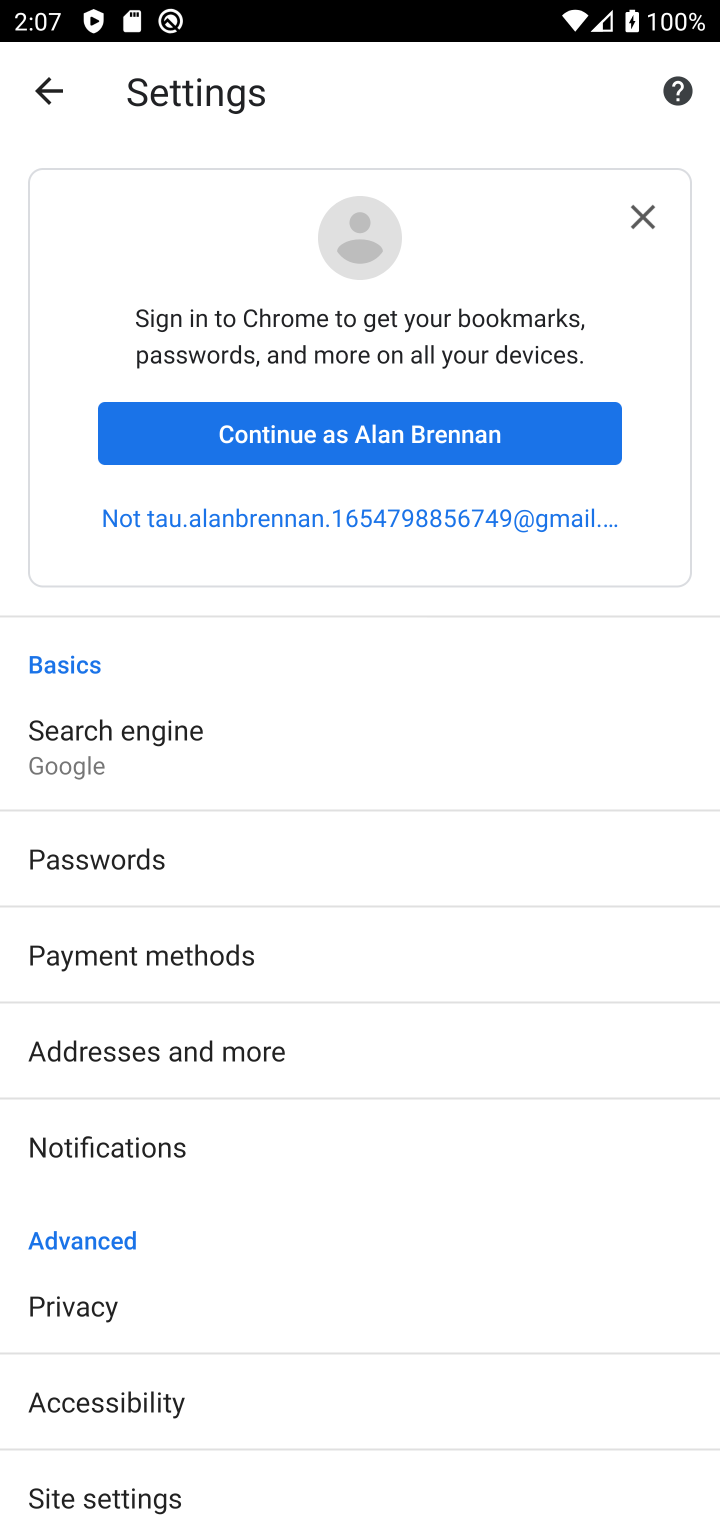
Step 29: click (645, 218)
Your task to perform on an android device: turn off javascript in the chrome app Image 30: 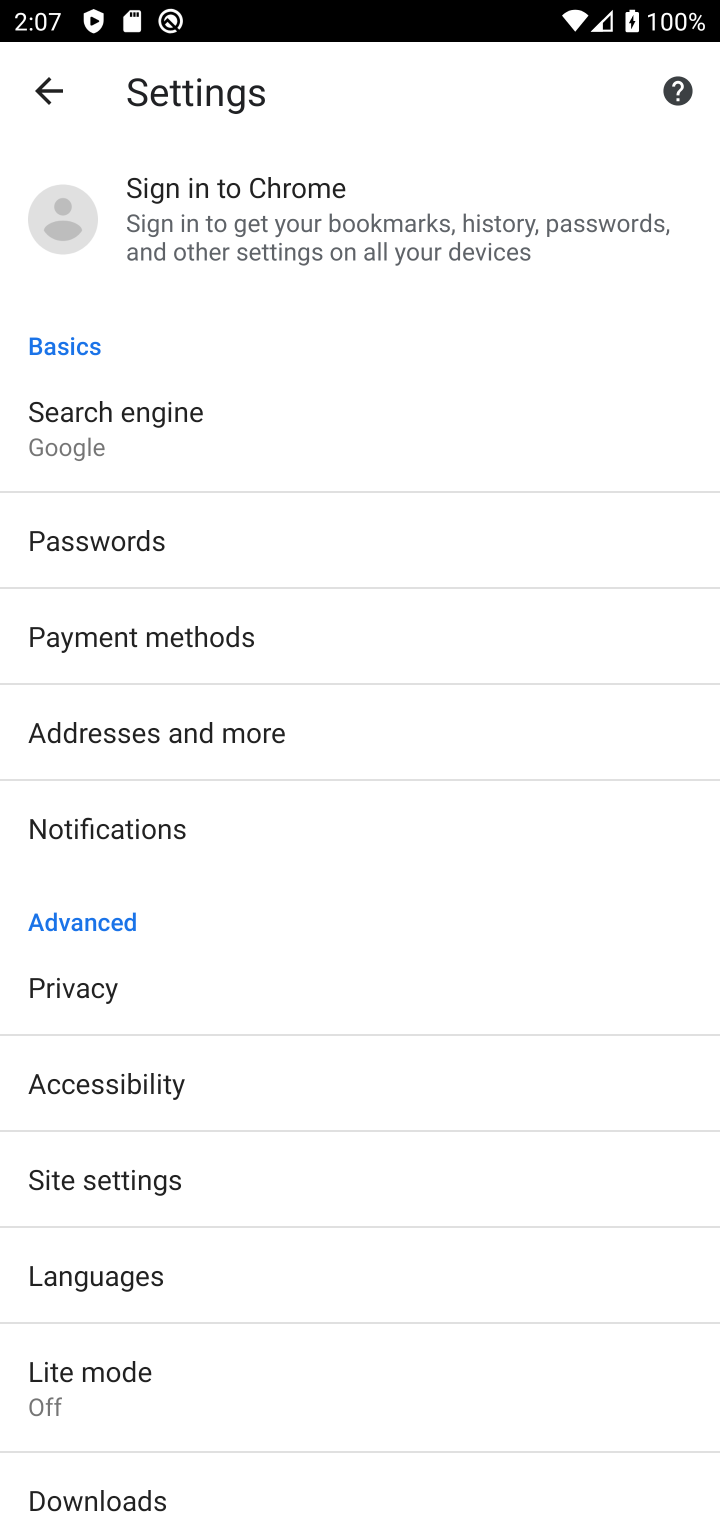
Step 30: click (183, 1178)
Your task to perform on an android device: turn off javascript in the chrome app Image 31: 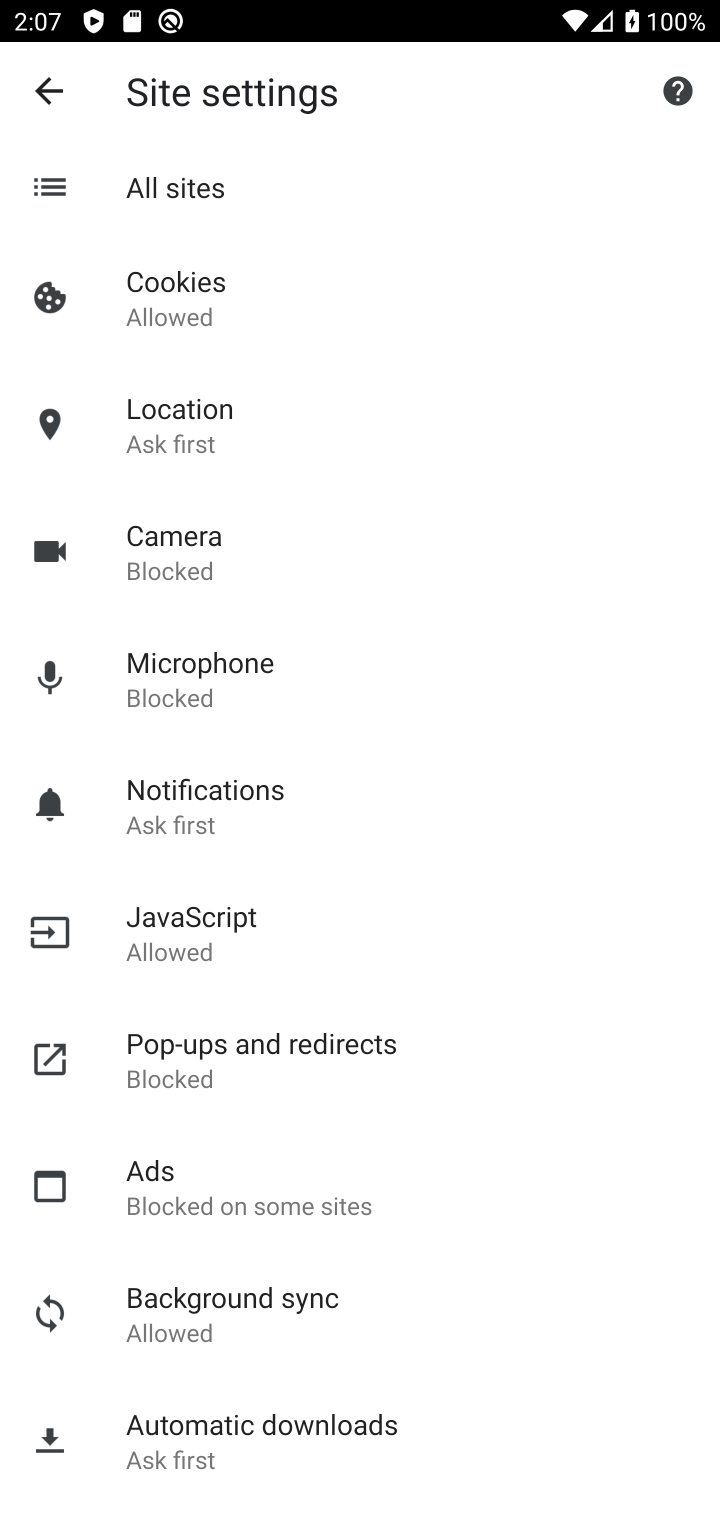
Step 31: click (183, 919)
Your task to perform on an android device: turn off javascript in the chrome app Image 32: 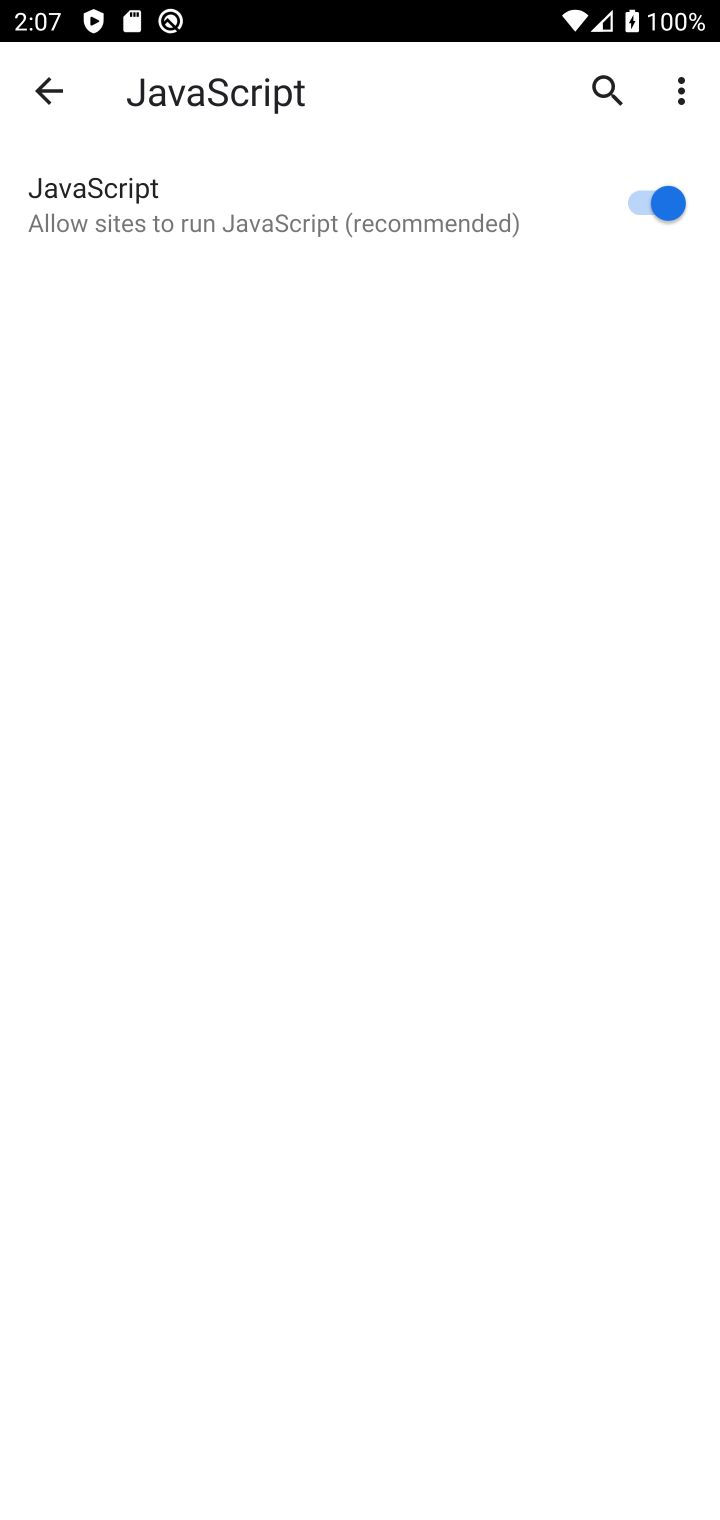
Step 32: click (671, 196)
Your task to perform on an android device: turn off javascript in the chrome app Image 33: 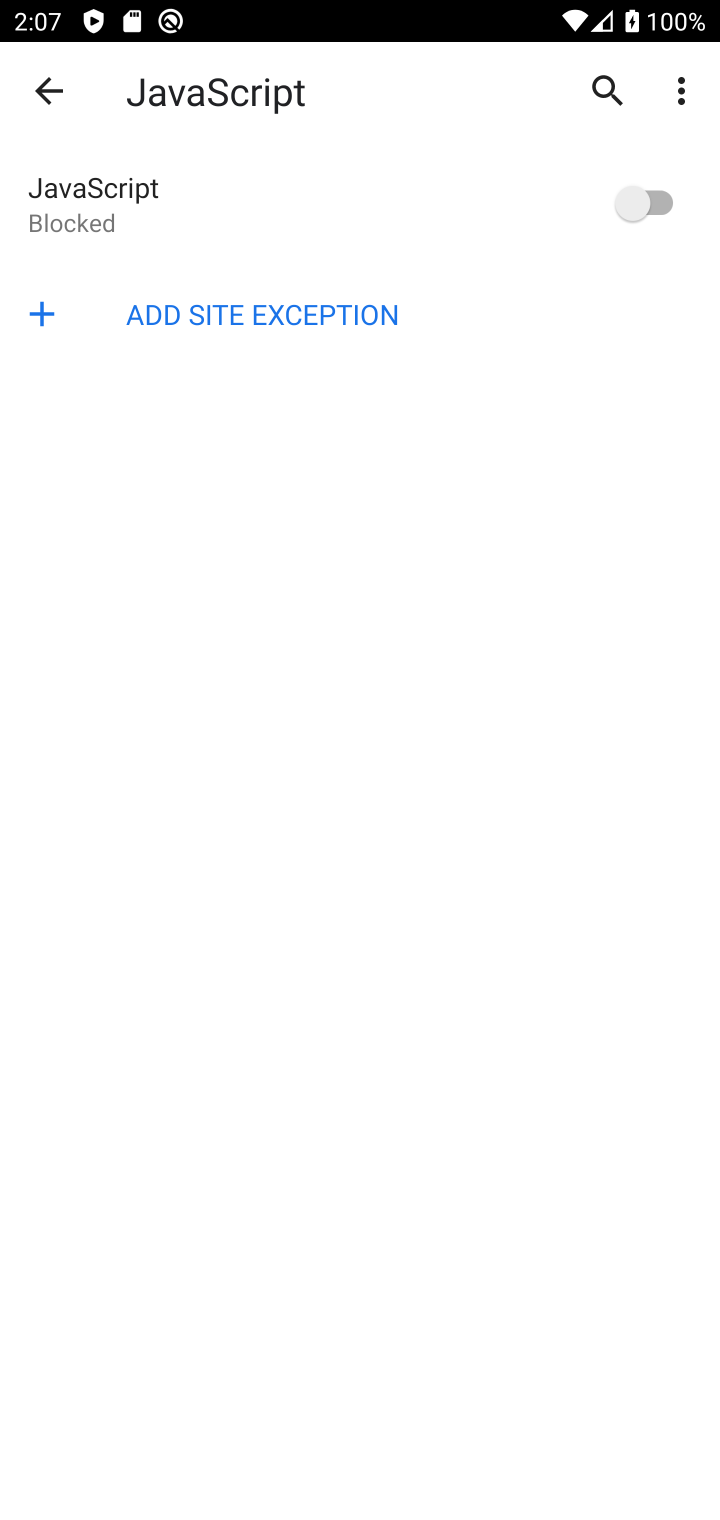
Step 33: task complete